Your task to perform on an android device: change keyboard looks Image 0: 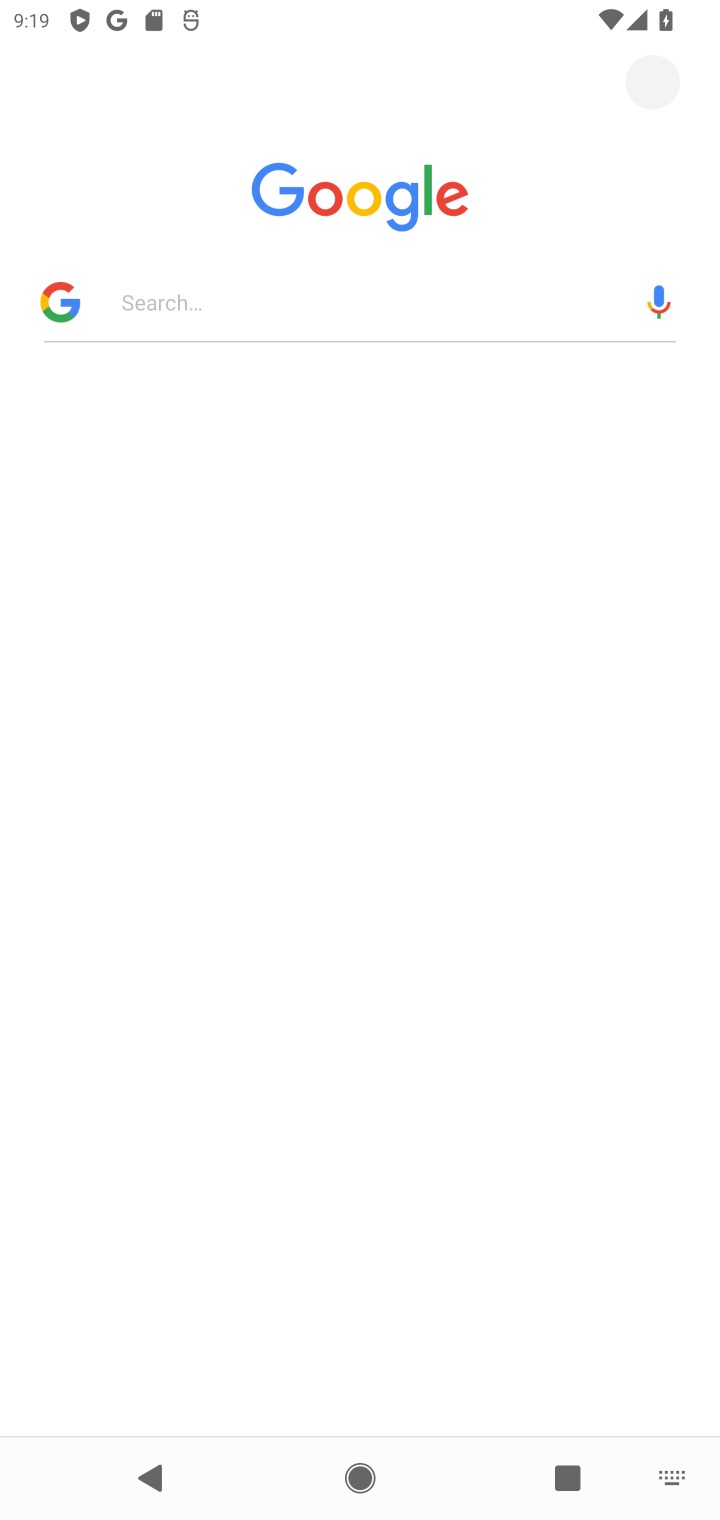
Step 0: press back button
Your task to perform on an android device: change keyboard looks Image 1: 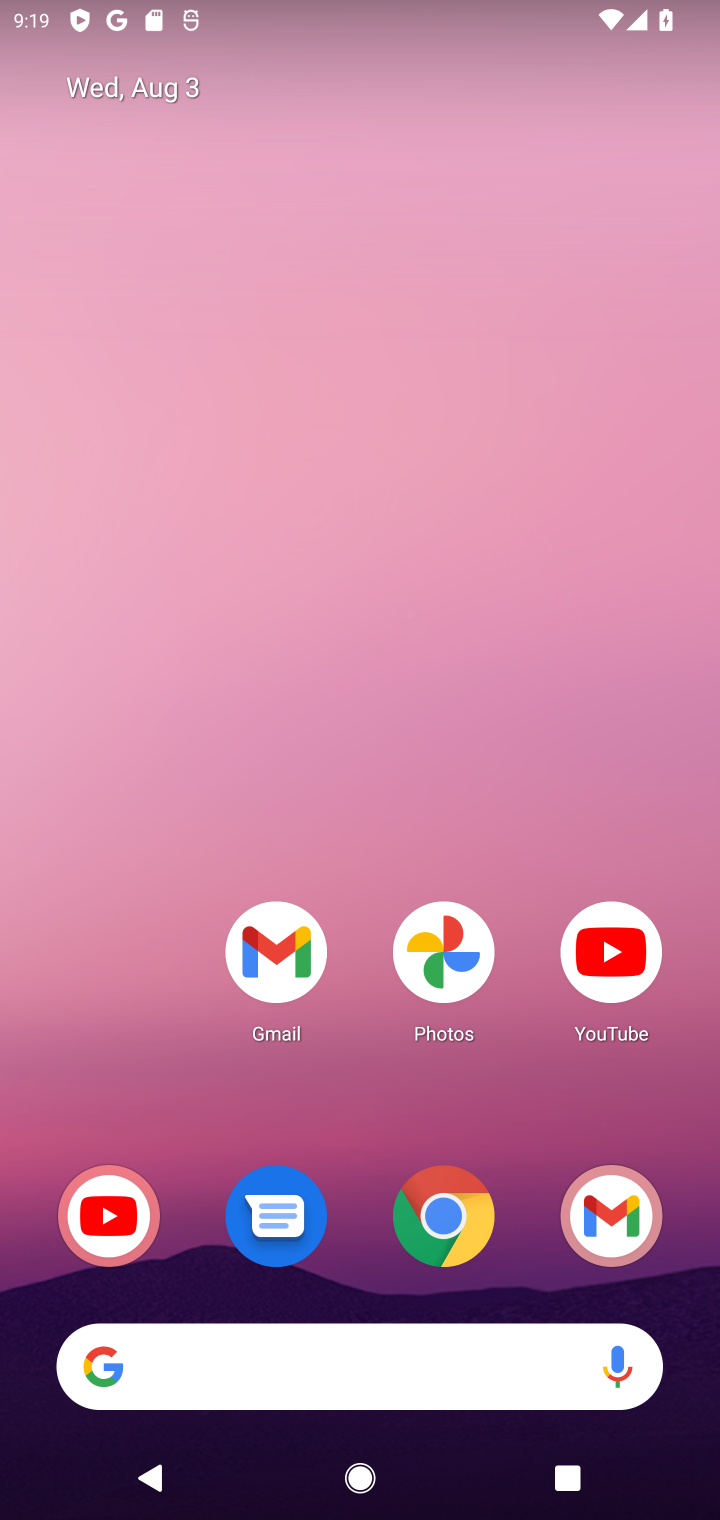
Step 1: drag from (132, 858) to (288, 3)
Your task to perform on an android device: change keyboard looks Image 2: 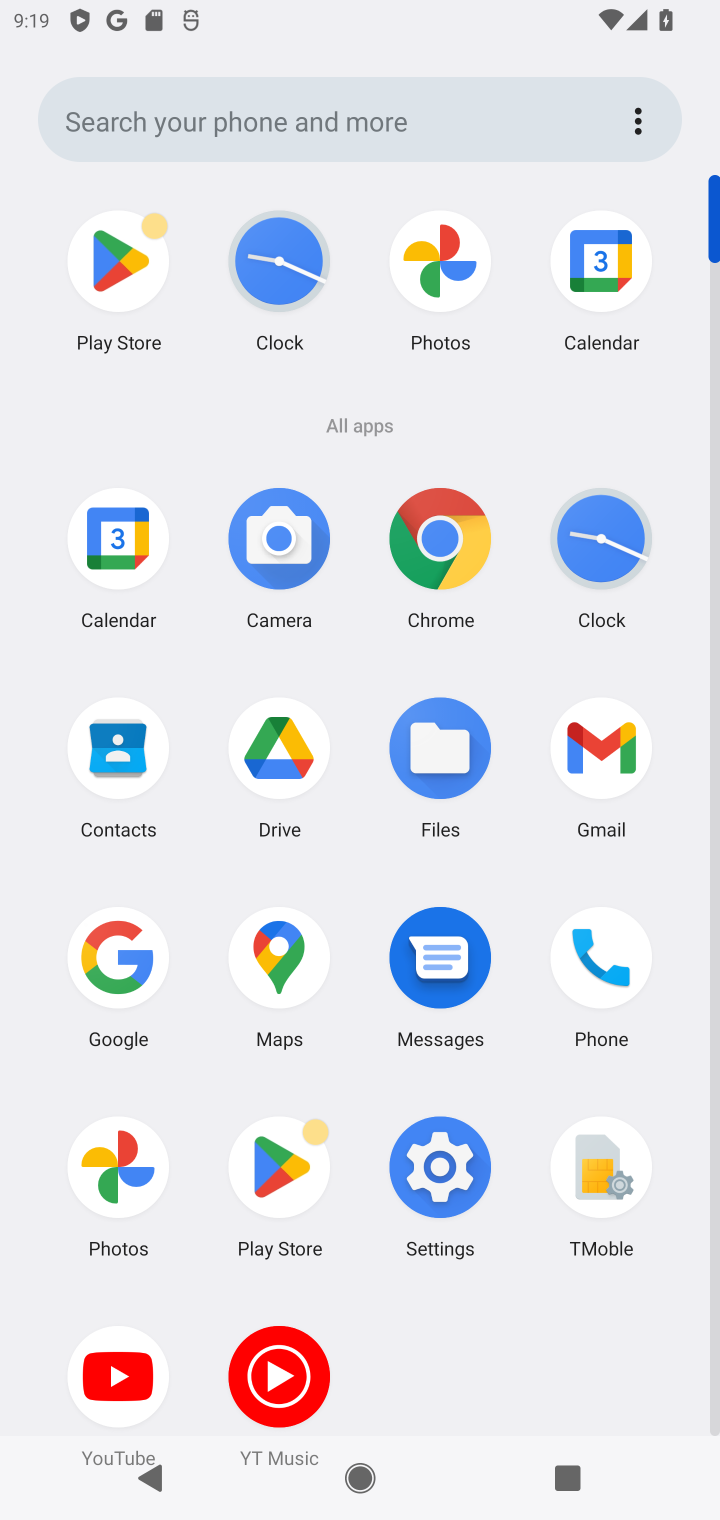
Step 2: click (431, 1179)
Your task to perform on an android device: change keyboard looks Image 3: 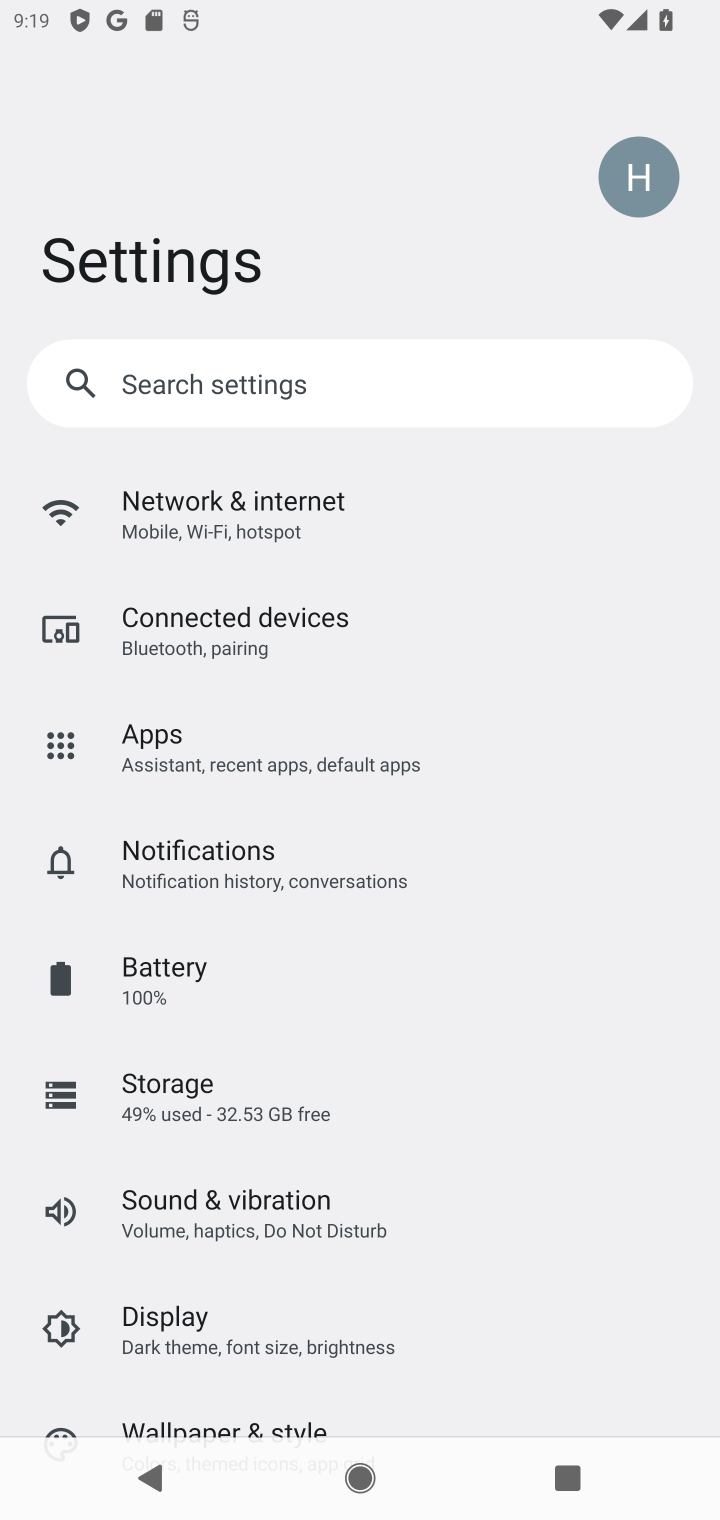
Step 3: drag from (325, 1030) to (465, 7)
Your task to perform on an android device: change keyboard looks Image 4: 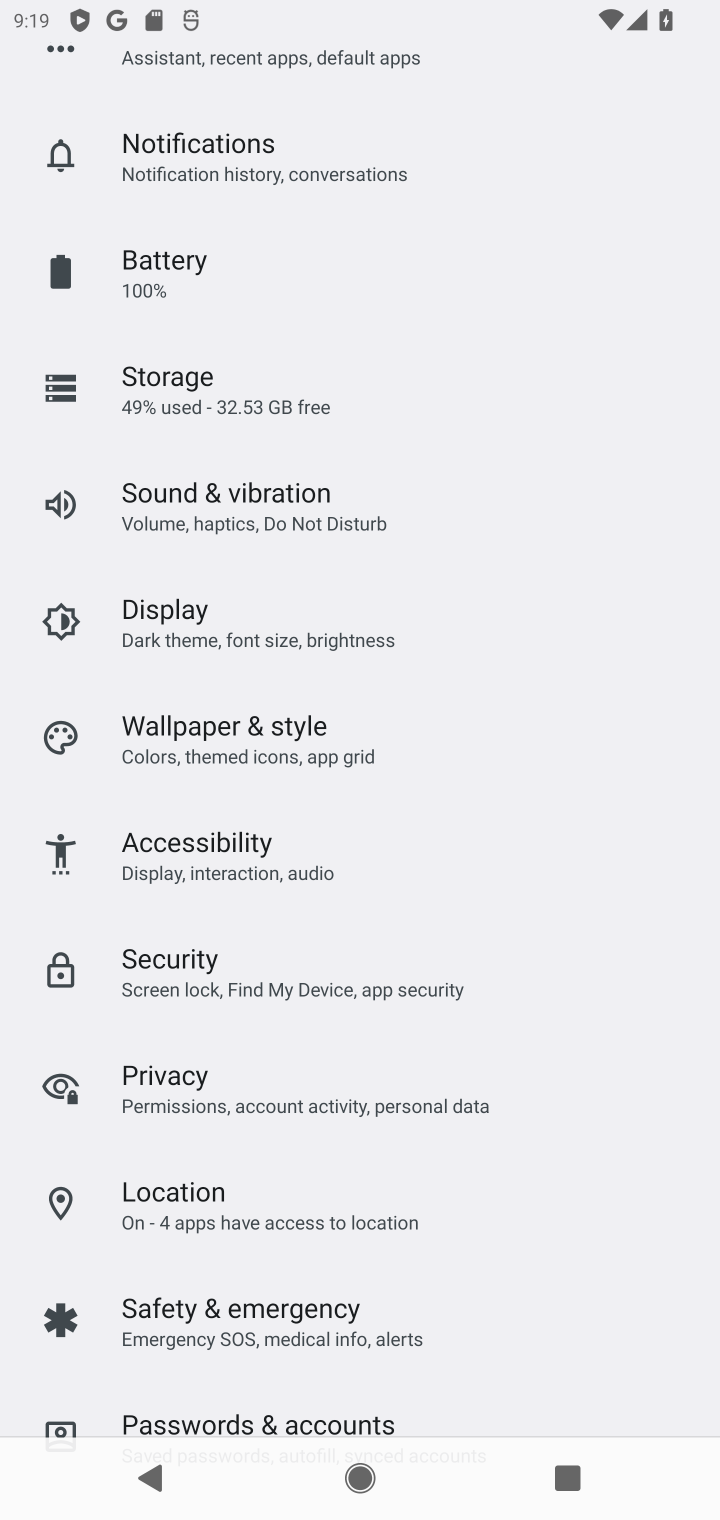
Step 4: drag from (323, 1348) to (534, 1)
Your task to perform on an android device: change keyboard looks Image 5: 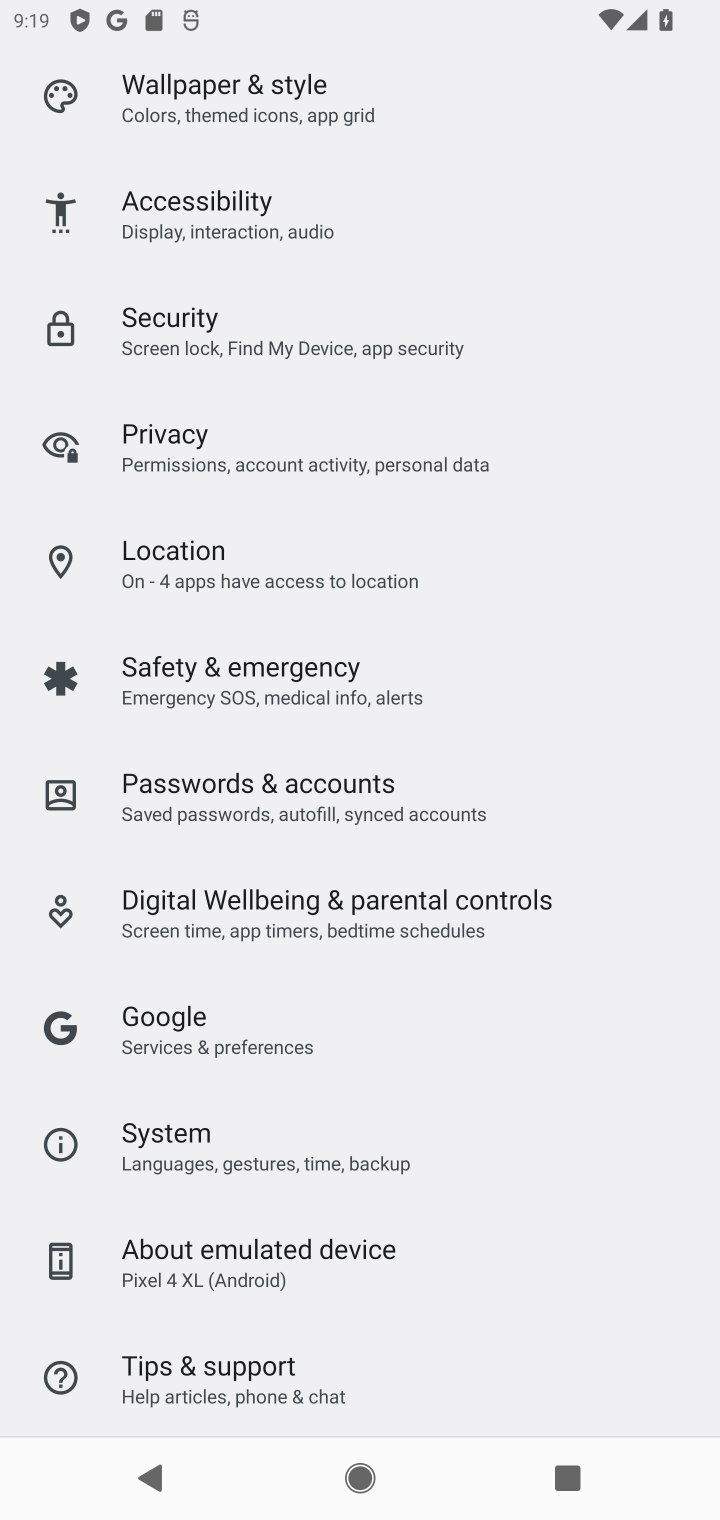
Step 5: drag from (340, 1266) to (543, 38)
Your task to perform on an android device: change keyboard looks Image 6: 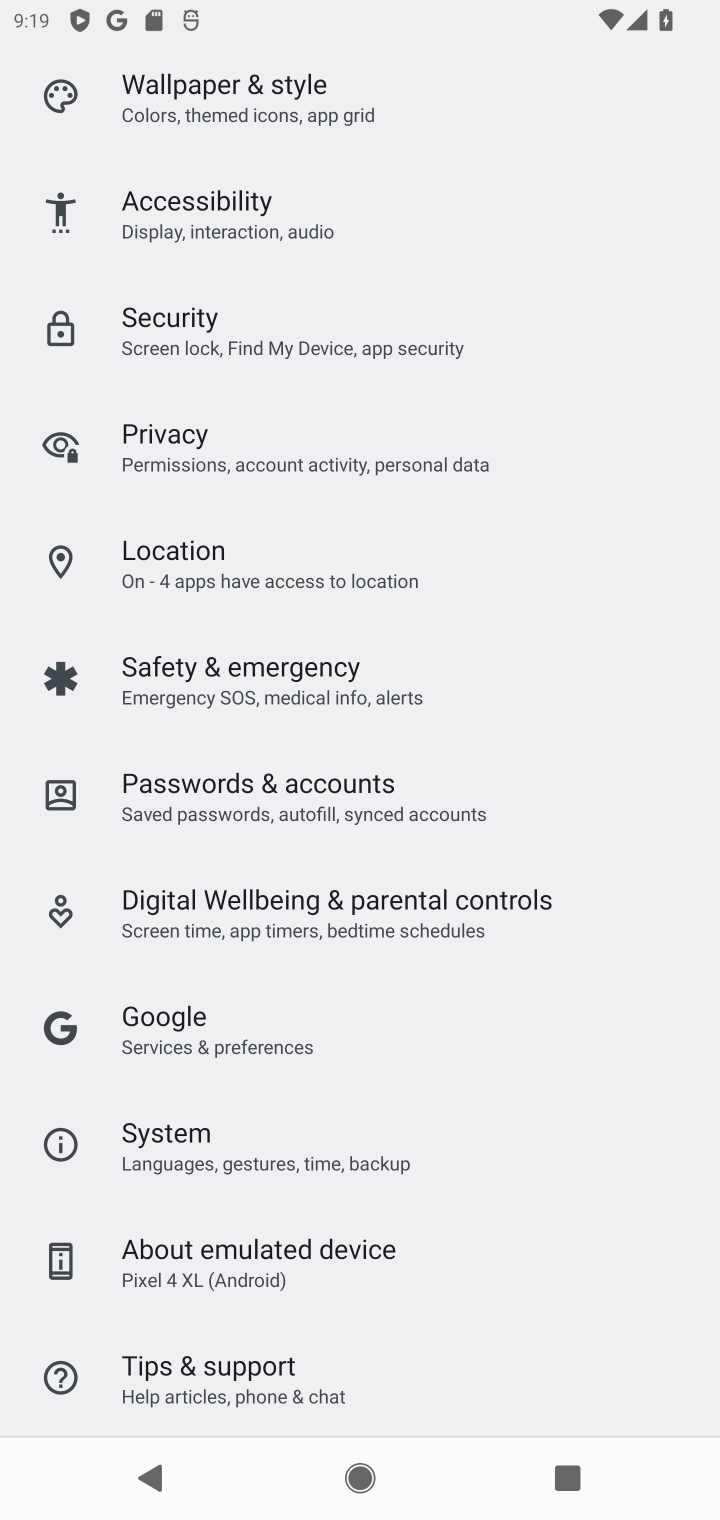
Step 6: click (228, 1382)
Your task to perform on an android device: change keyboard looks Image 7: 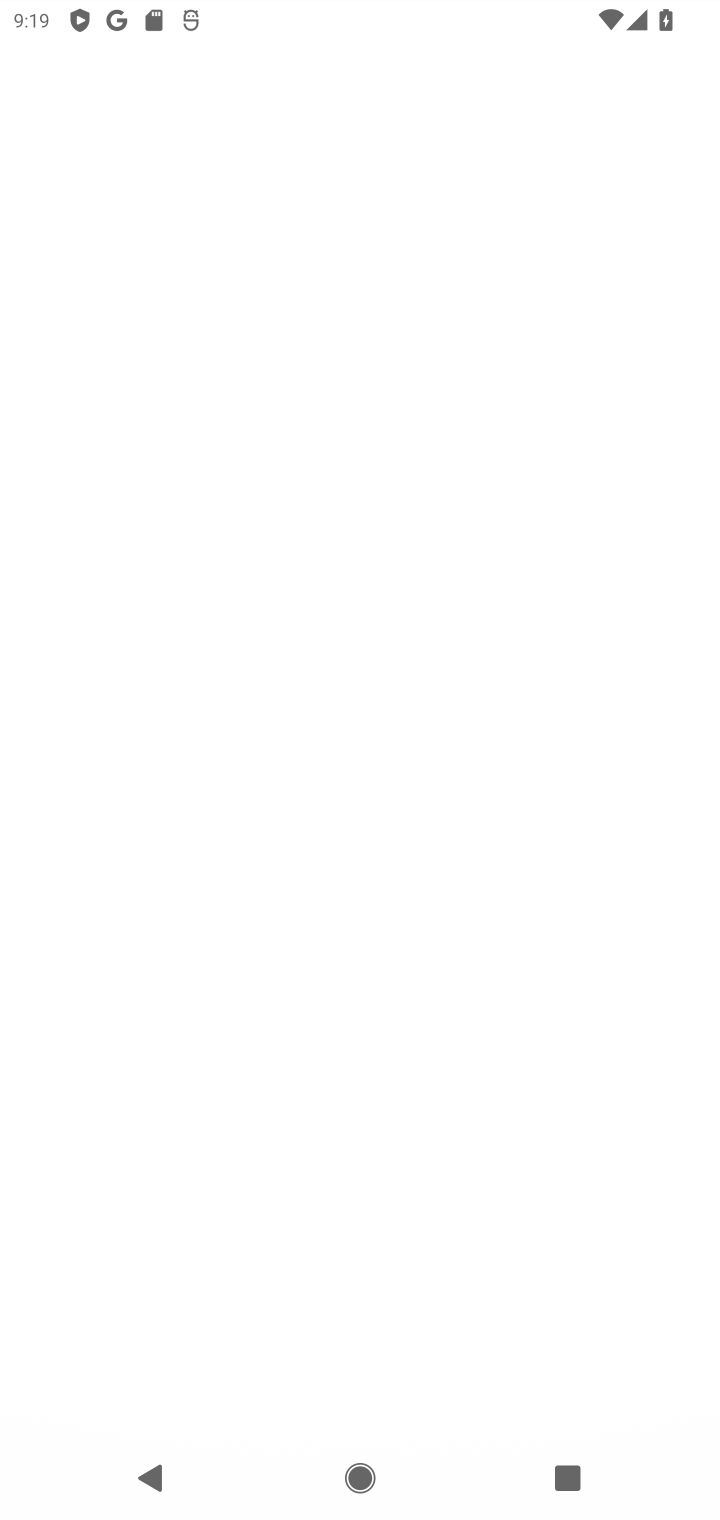
Step 7: press back button
Your task to perform on an android device: change keyboard looks Image 8: 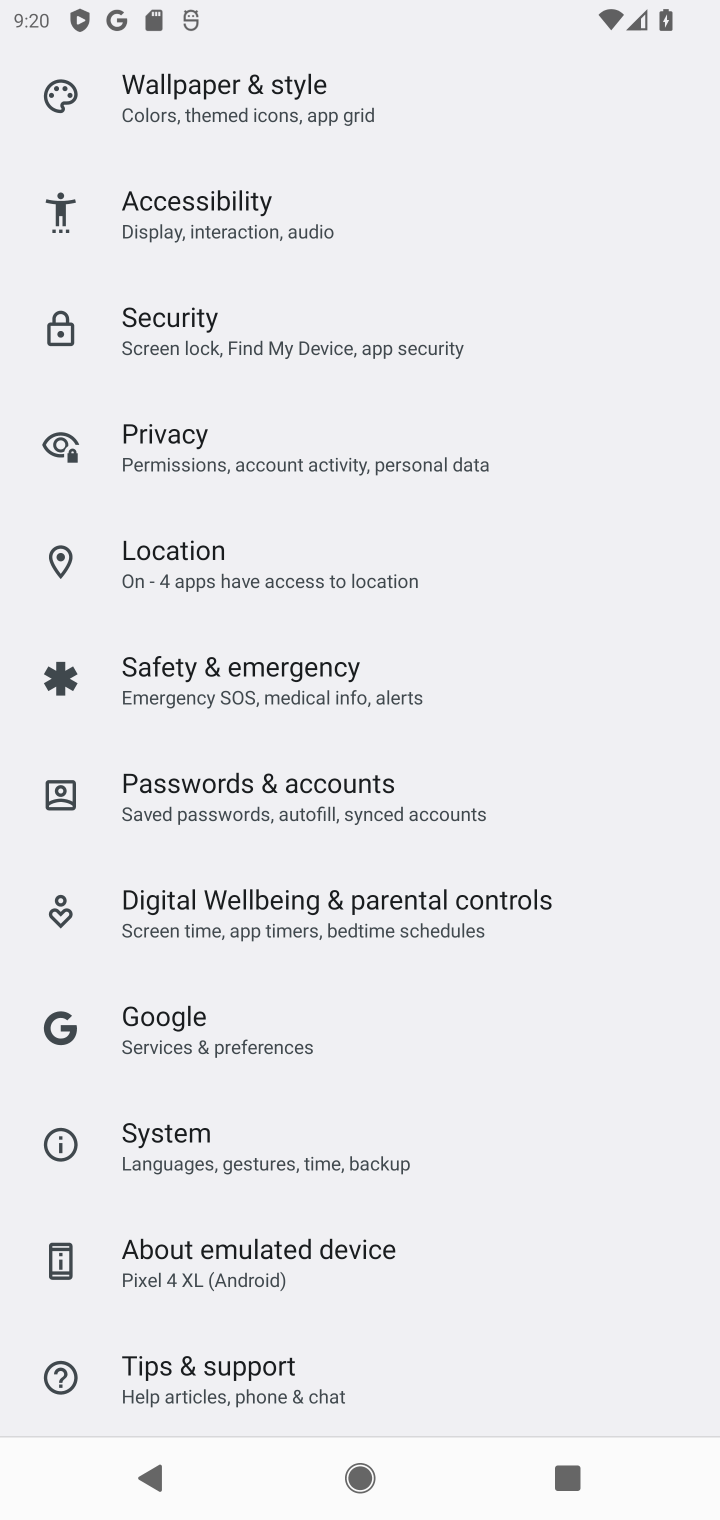
Step 8: drag from (308, 1233) to (419, 3)
Your task to perform on an android device: change keyboard looks Image 9: 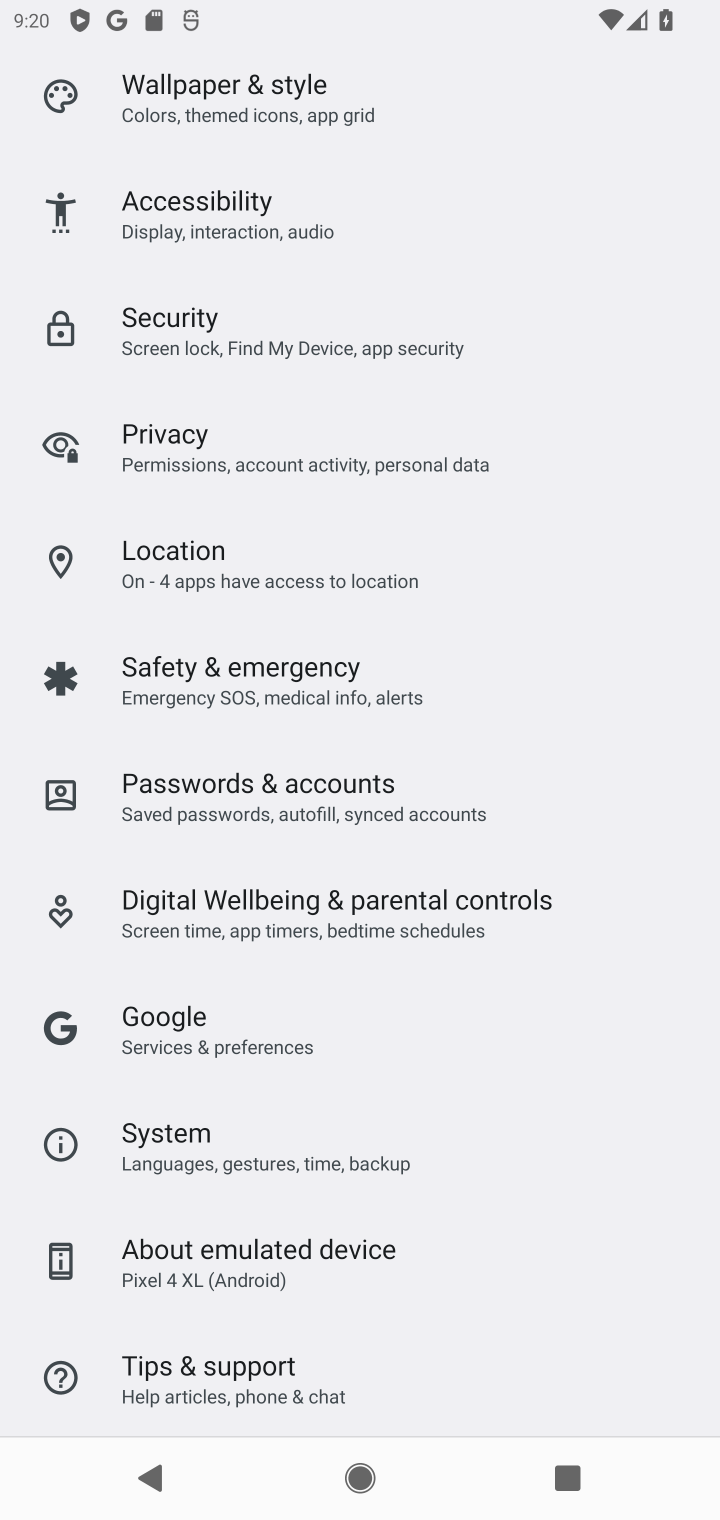
Step 9: drag from (308, 1361) to (435, 98)
Your task to perform on an android device: change keyboard looks Image 10: 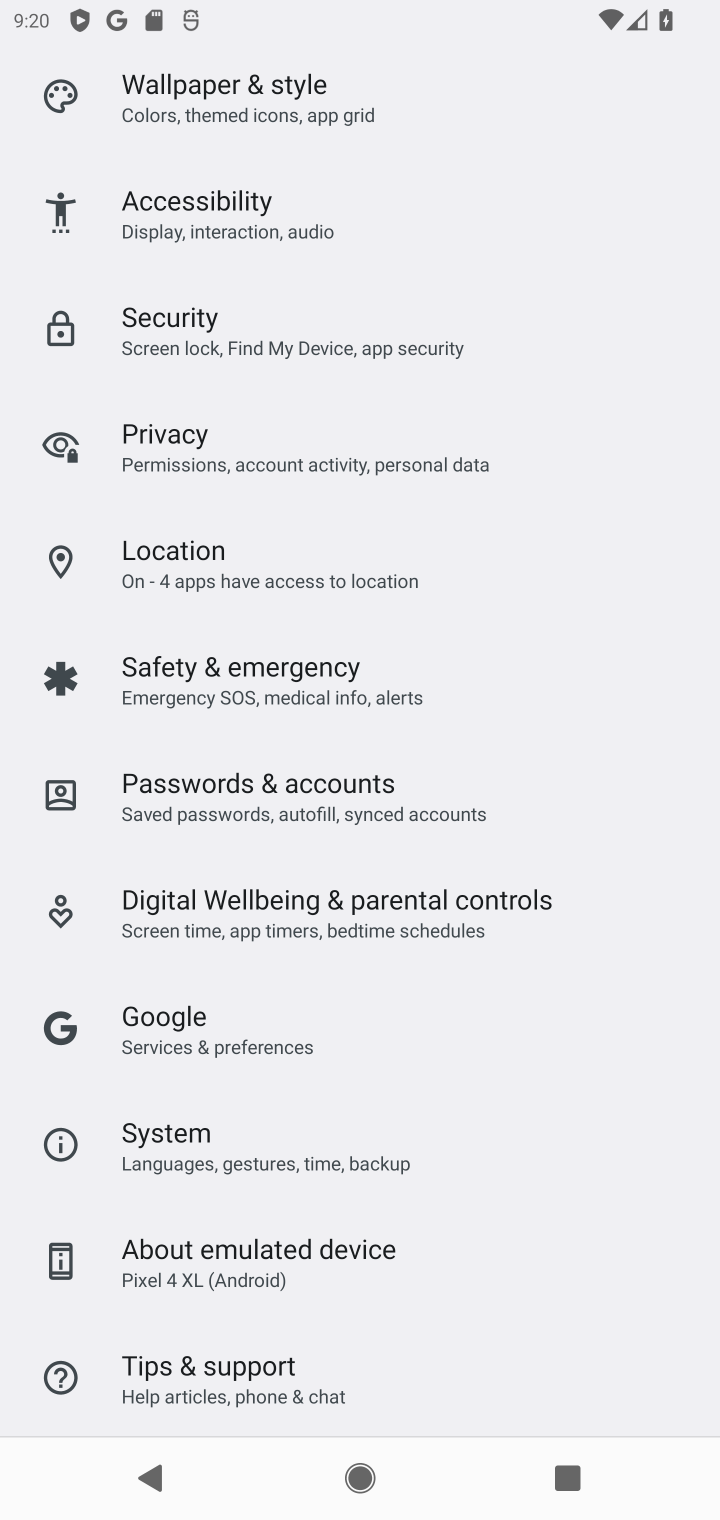
Step 10: click (333, 1265)
Your task to perform on an android device: change keyboard looks Image 11: 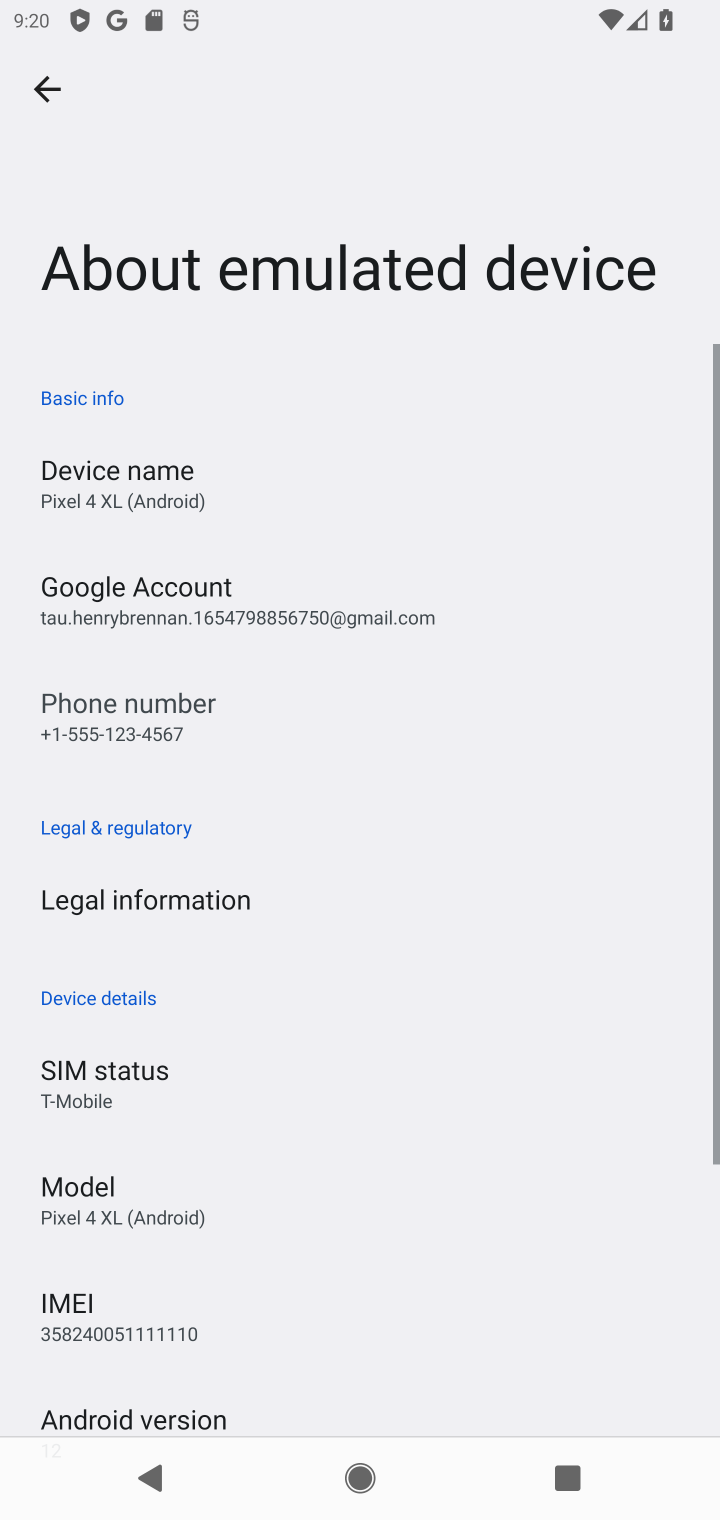
Step 11: click (41, 82)
Your task to perform on an android device: change keyboard looks Image 12: 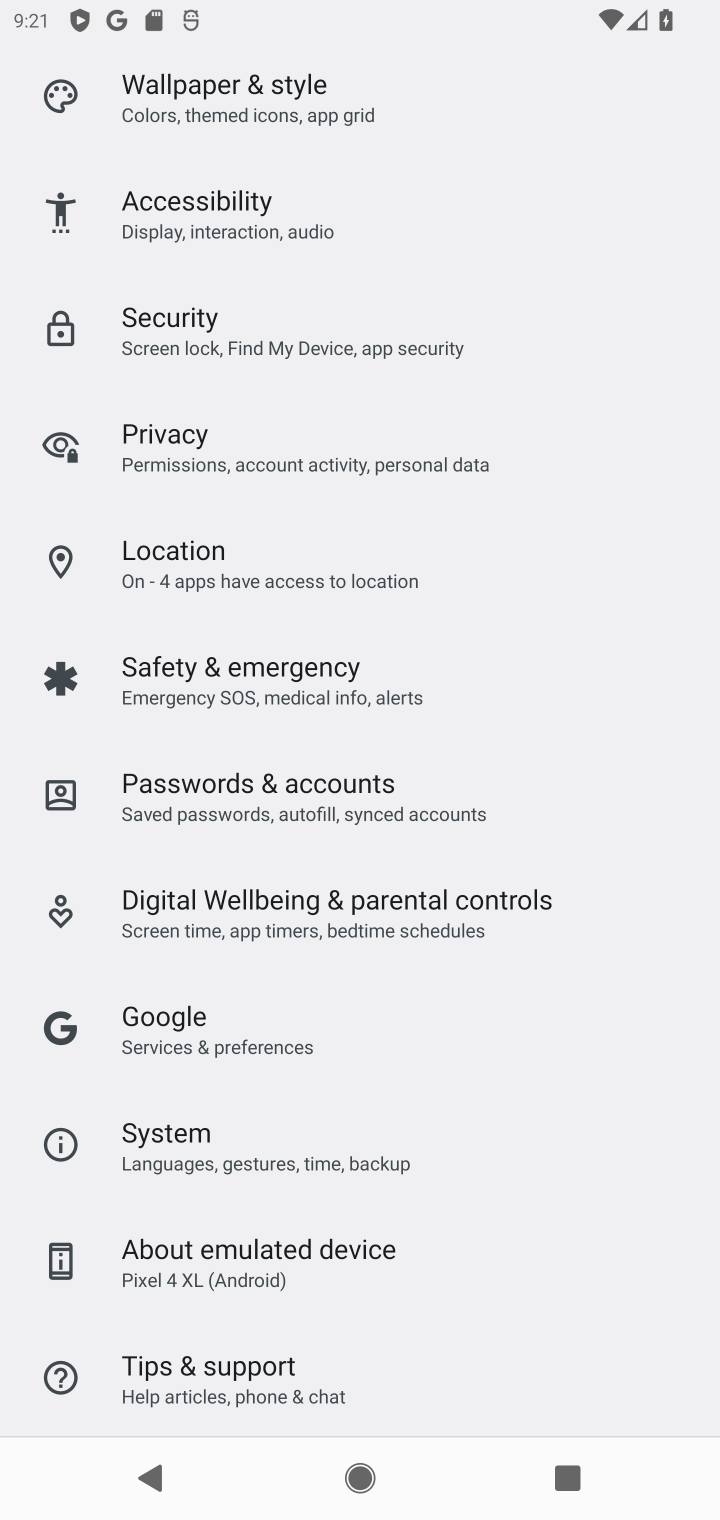
Step 12: click (333, 1149)
Your task to perform on an android device: change keyboard looks Image 13: 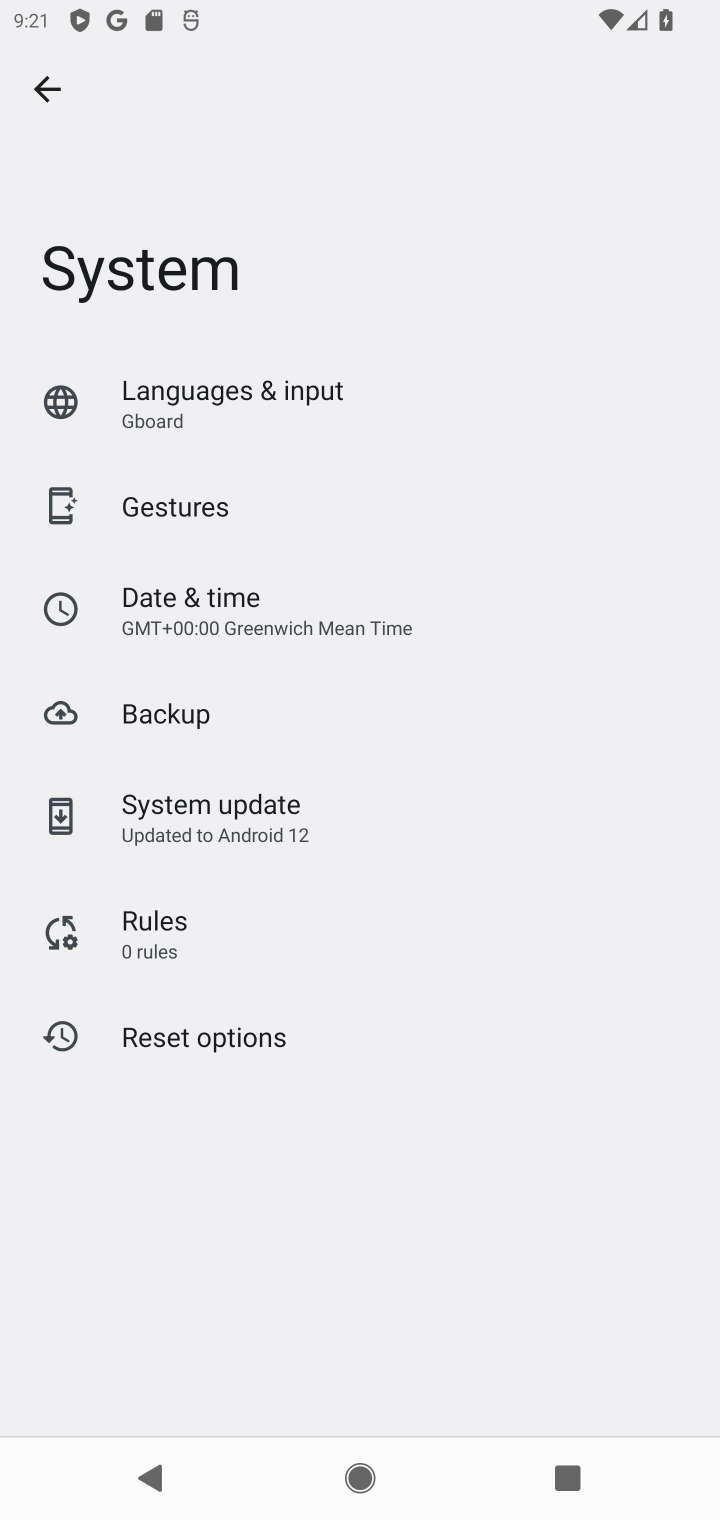
Step 13: click (226, 422)
Your task to perform on an android device: change keyboard looks Image 14: 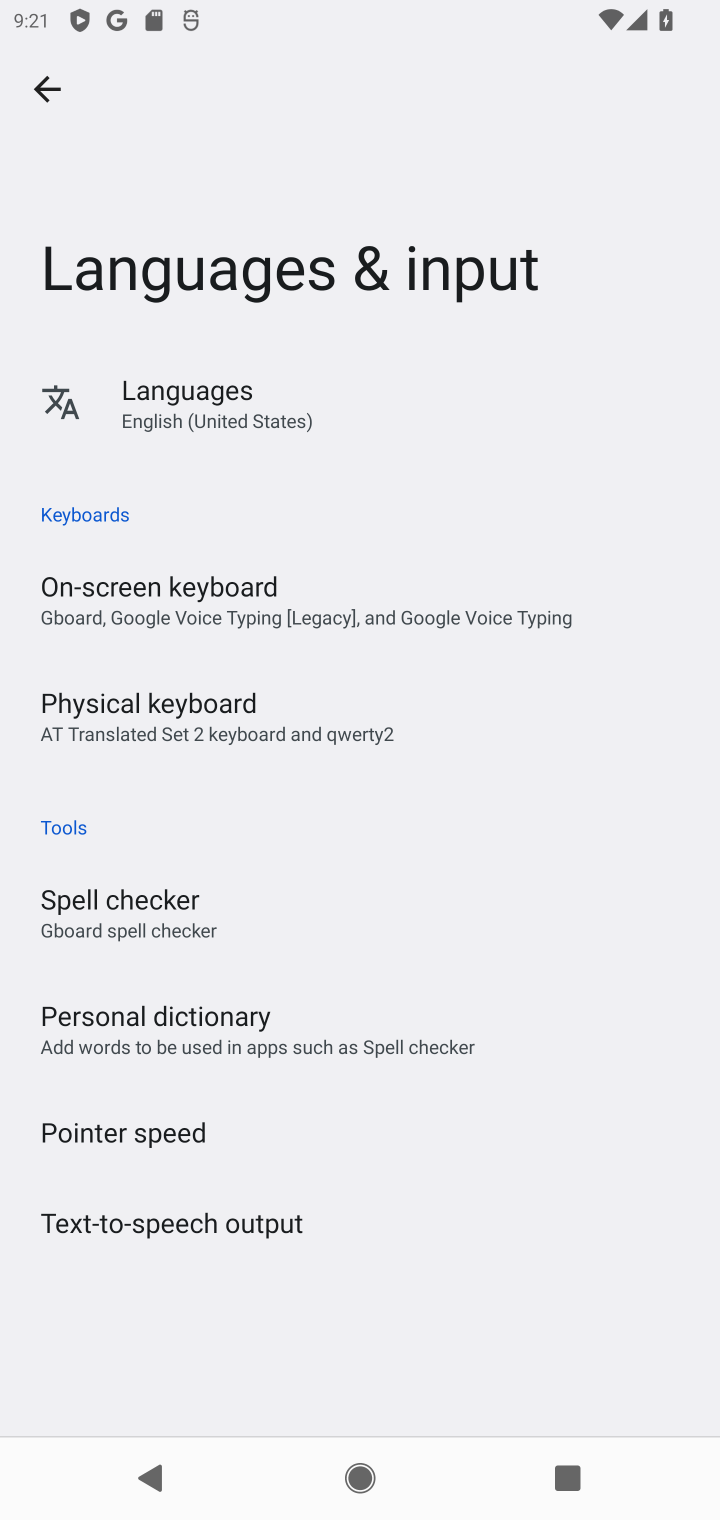
Step 14: click (272, 712)
Your task to perform on an android device: change keyboard looks Image 15: 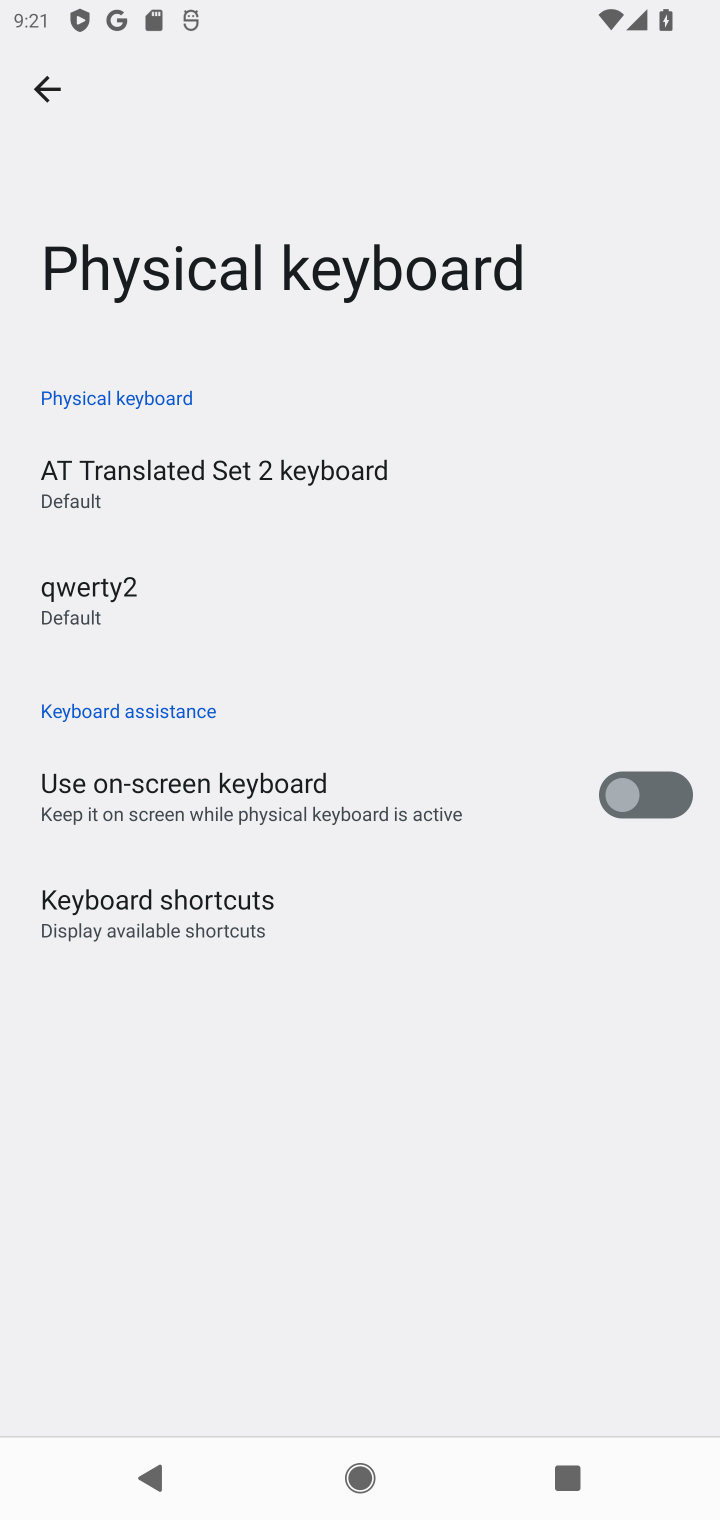
Step 15: click (64, 104)
Your task to perform on an android device: change keyboard looks Image 16: 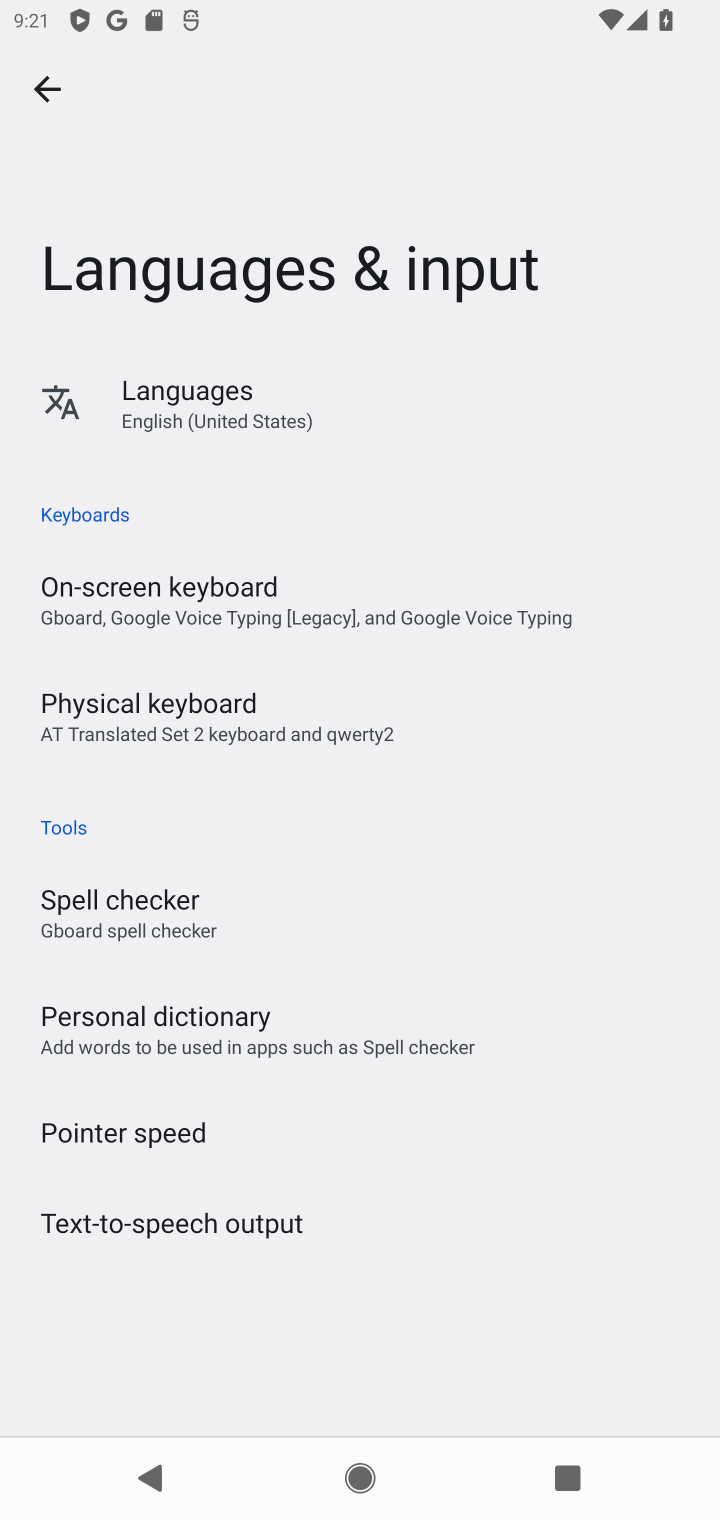
Step 16: click (172, 412)
Your task to perform on an android device: change keyboard looks Image 17: 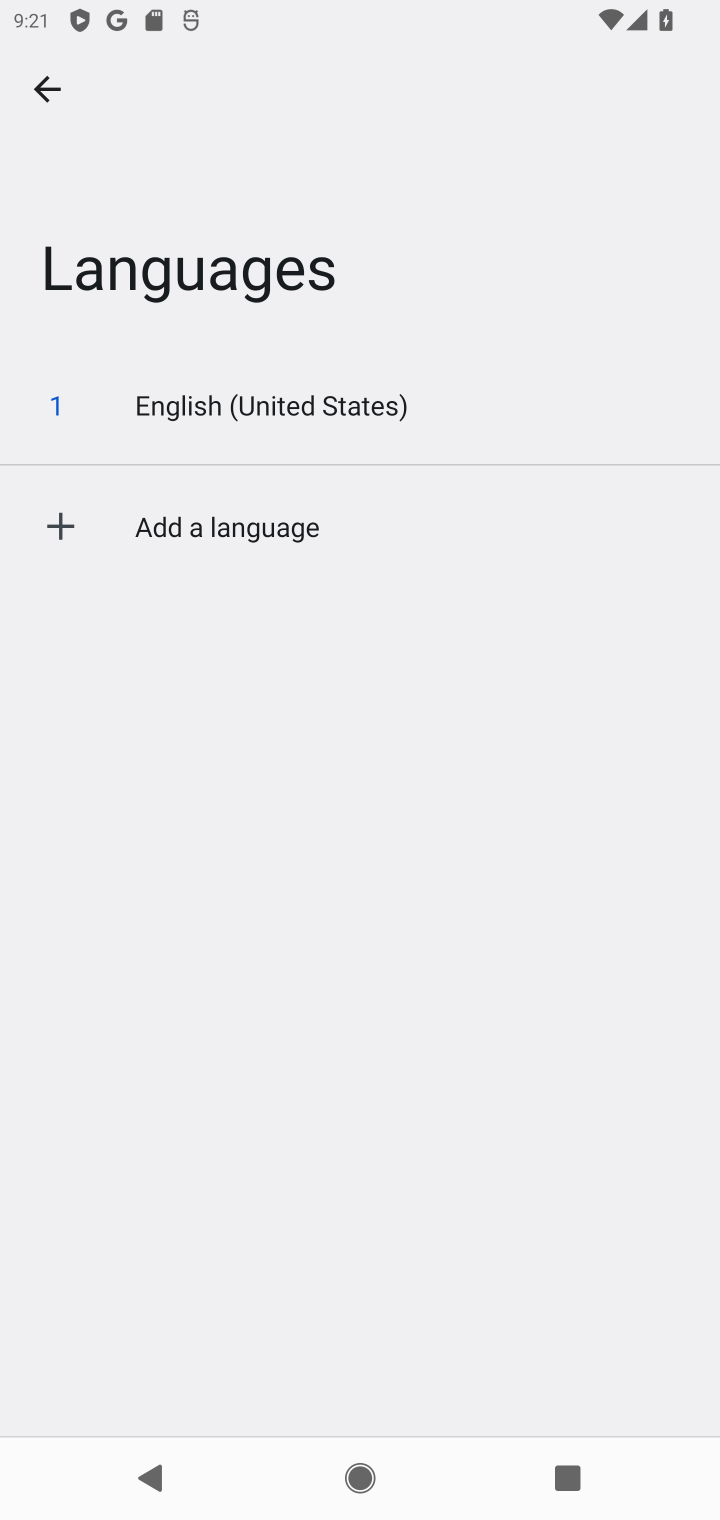
Step 17: click (26, 72)
Your task to perform on an android device: change keyboard looks Image 18: 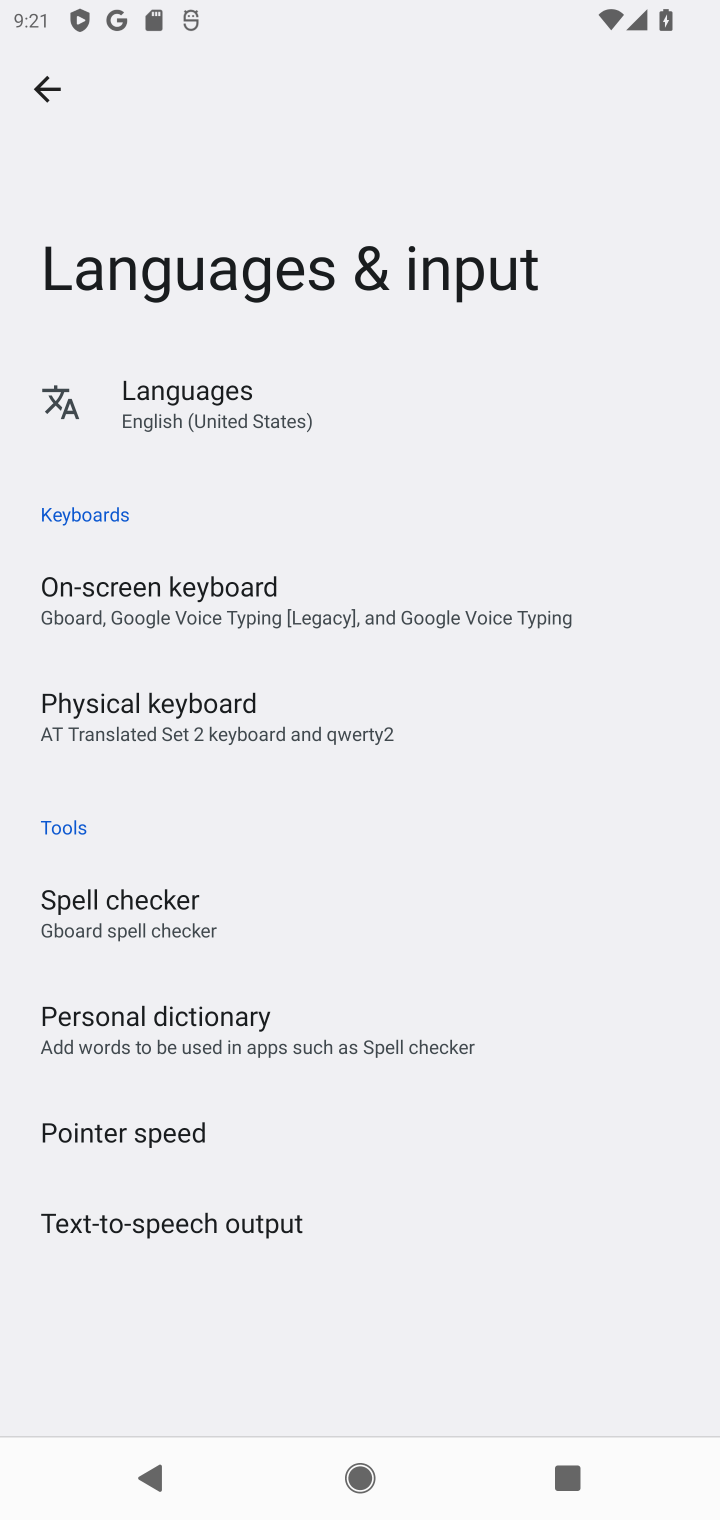
Step 18: click (47, 82)
Your task to perform on an android device: change keyboard looks Image 19: 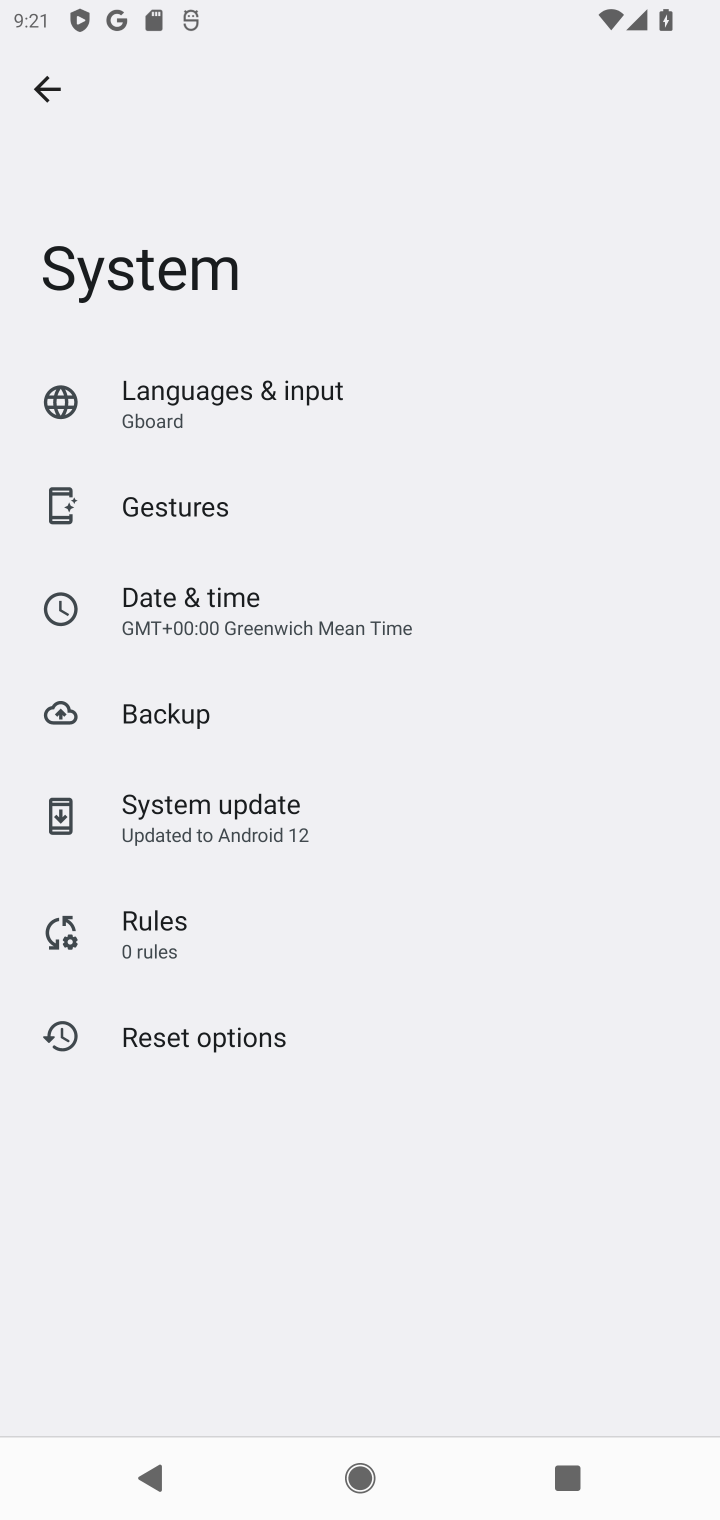
Step 19: click (227, 380)
Your task to perform on an android device: change keyboard looks Image 20: 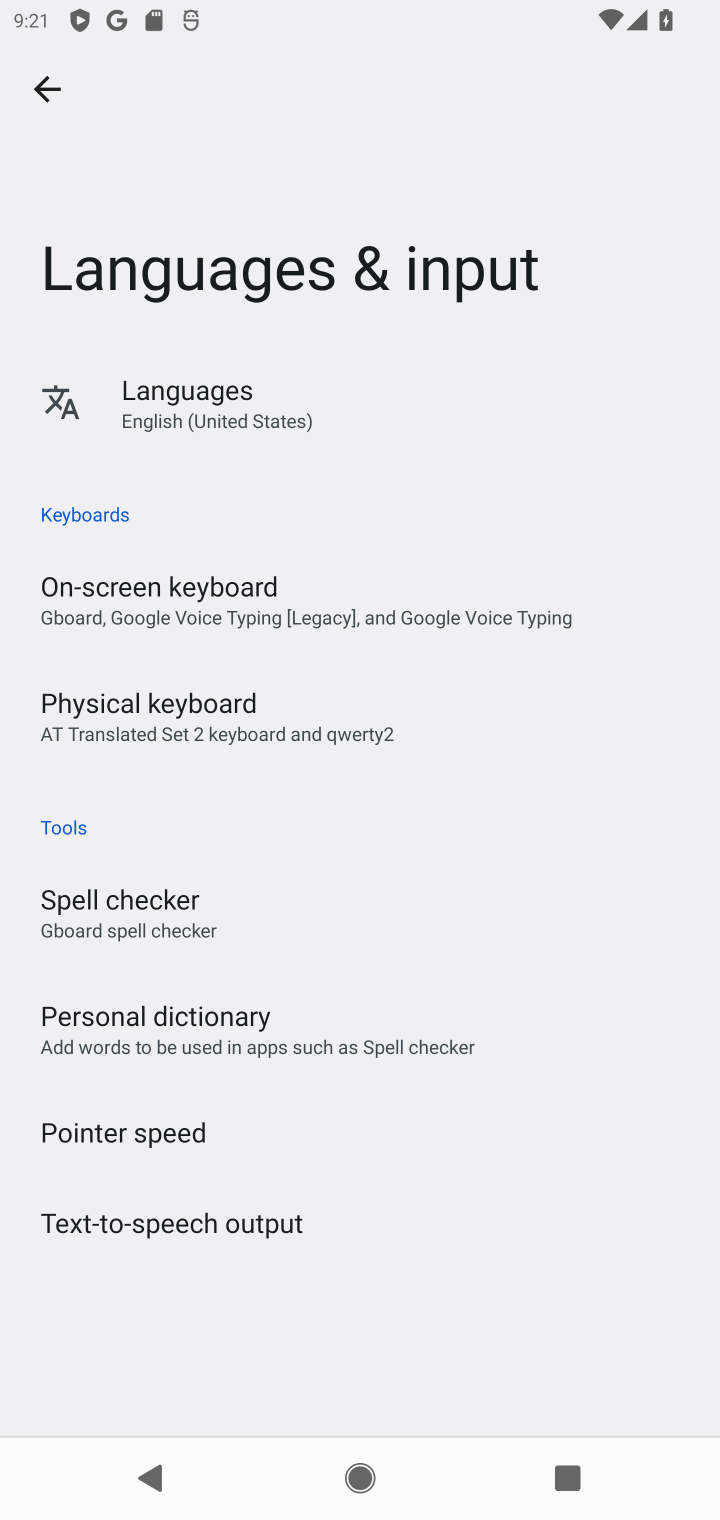
Step 20: click (143, 599)
Your task to perform on an android device: change keyboard looks Image 21: 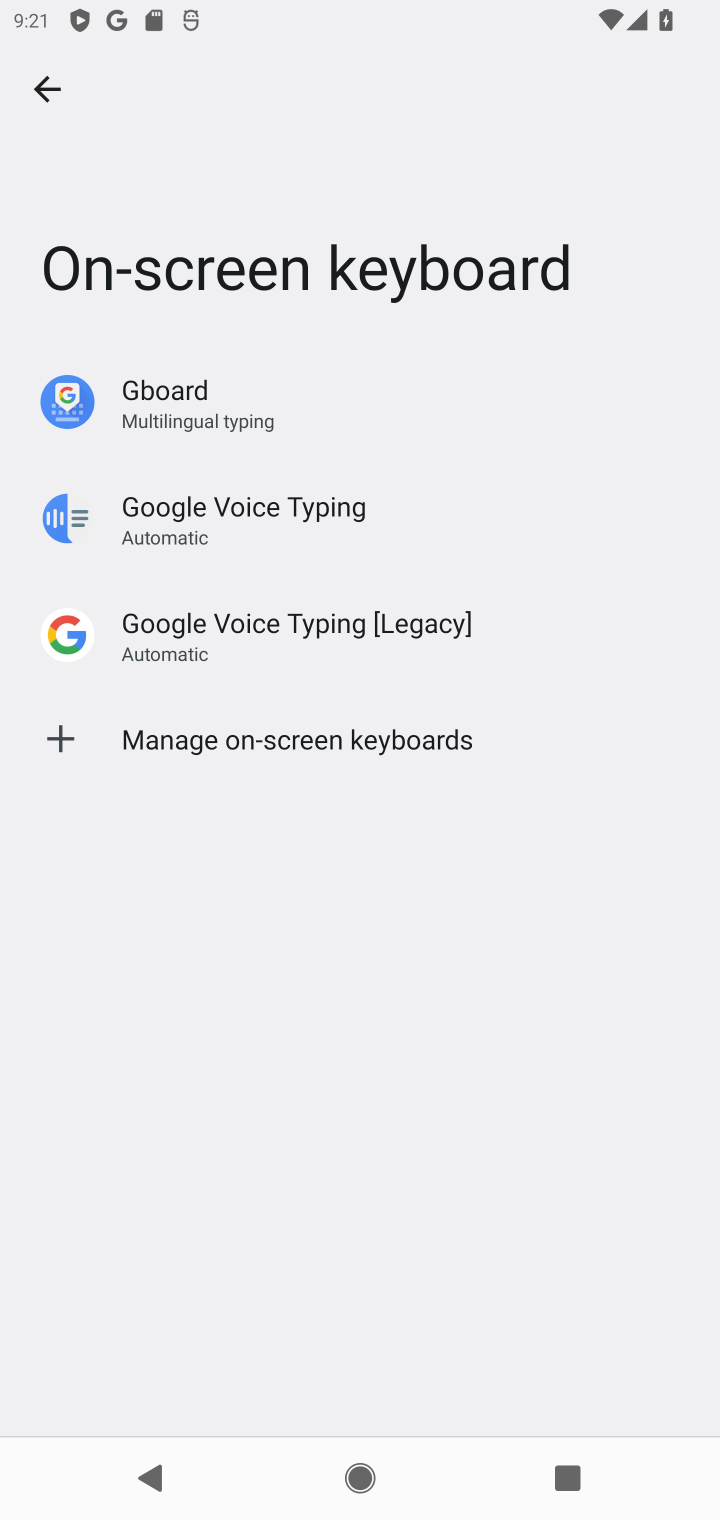
Step 21: click (49, 82)
Your task to perform on an android device: change keyboard looks Image 22: 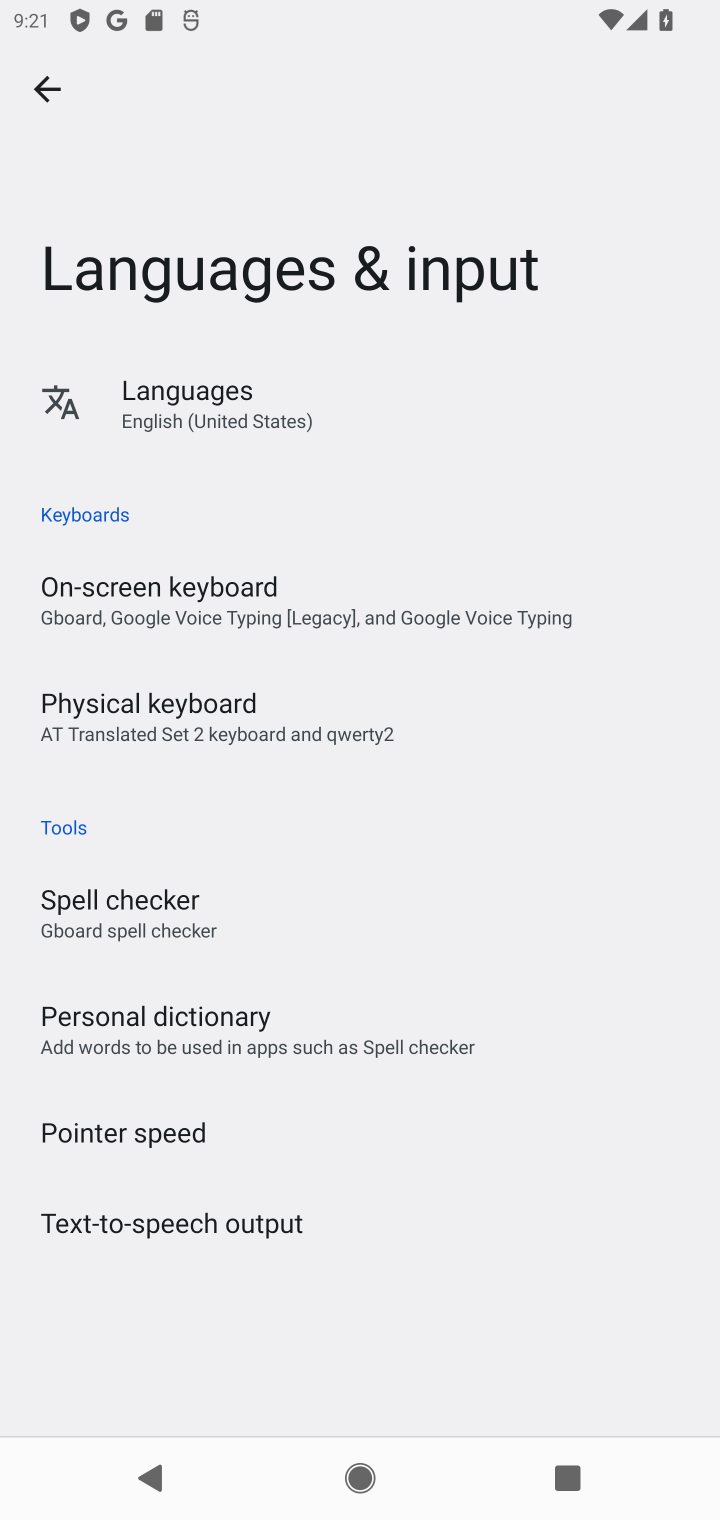
Step 22: click (169, 611)
Your task to perform on an android device: change keyboard looks Image 23: 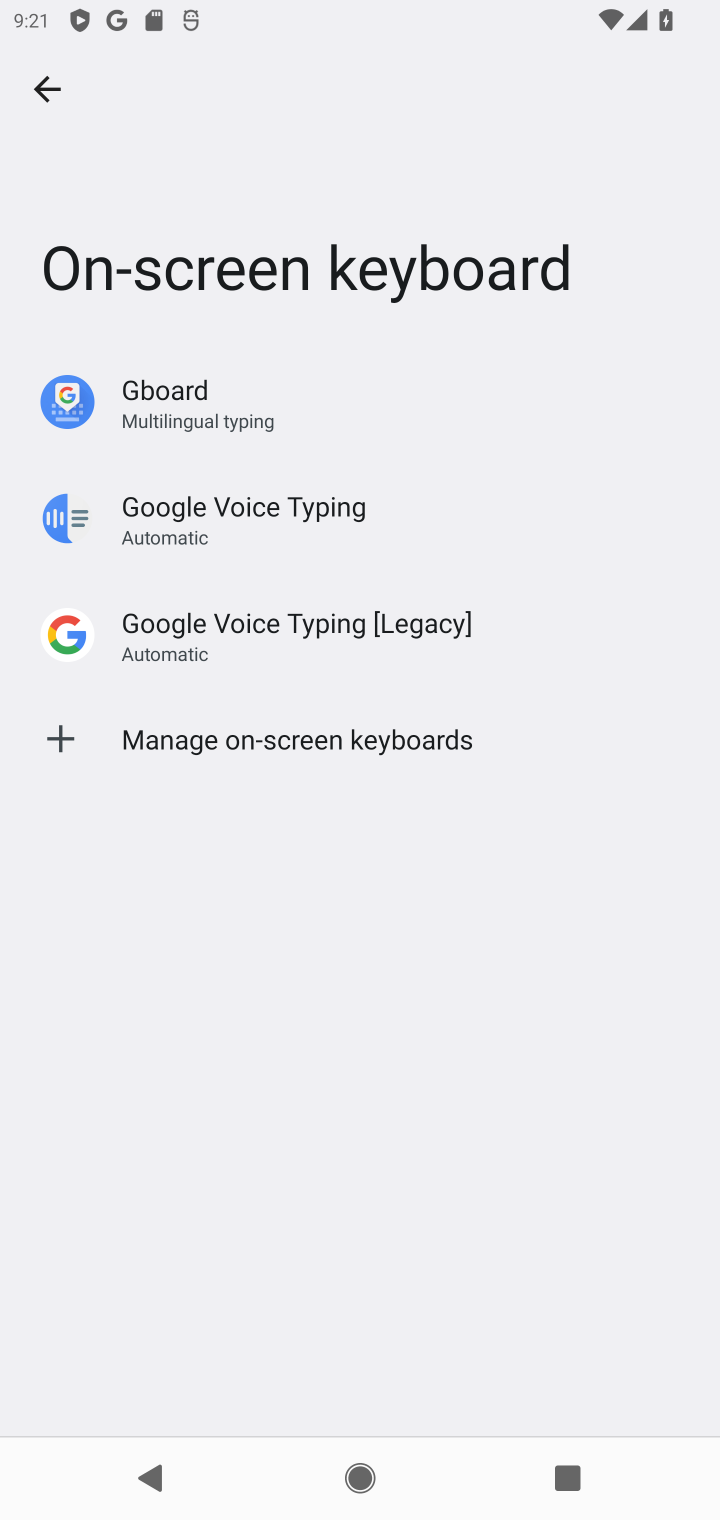
Step 23: click (190, 409)
Your task to perform on an android device: change keyboard looks Image 24: 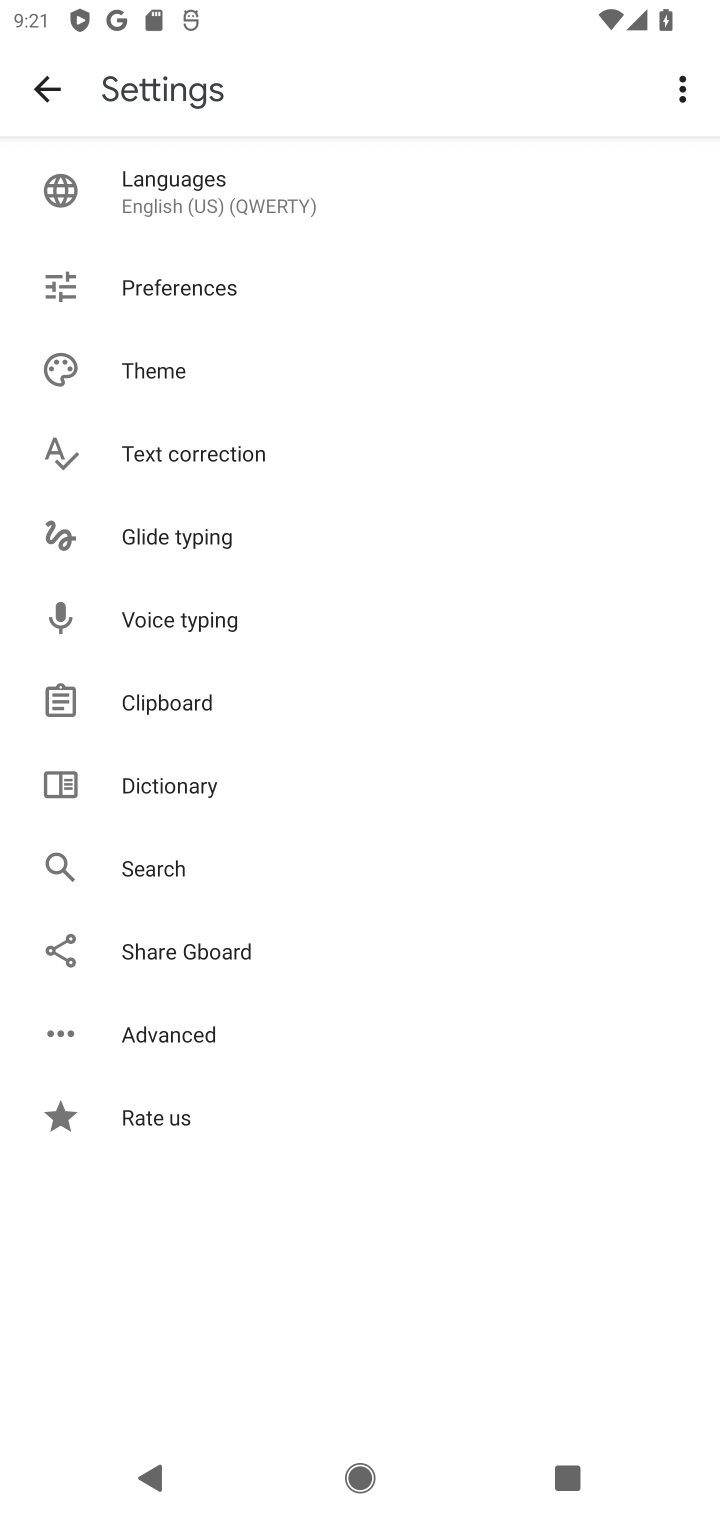
Step 24: click (173, 371)
Your task to perform on an android device: change keyboard looks Image 25: 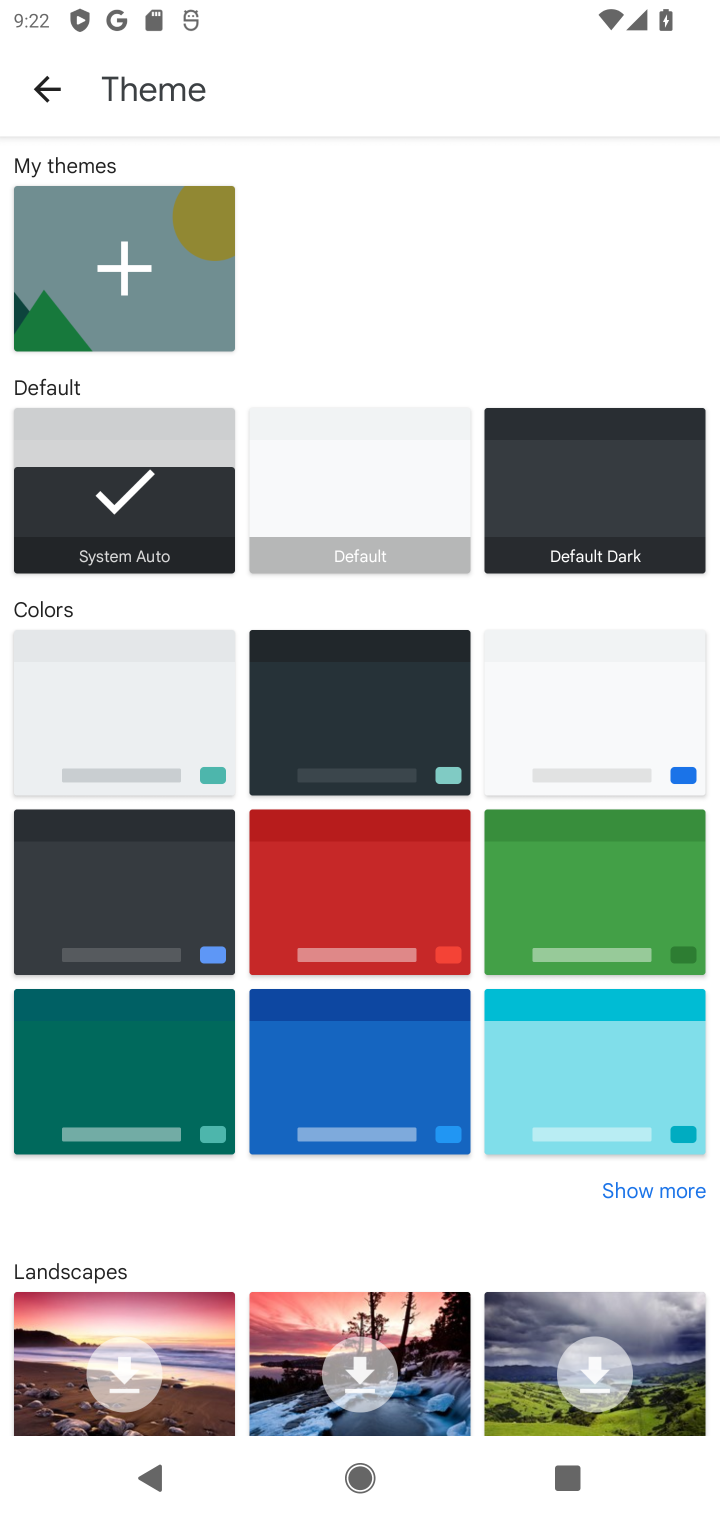
Step 25: click (606, 885)
Your task to perform on an android device: change keyboard looks Image 26: 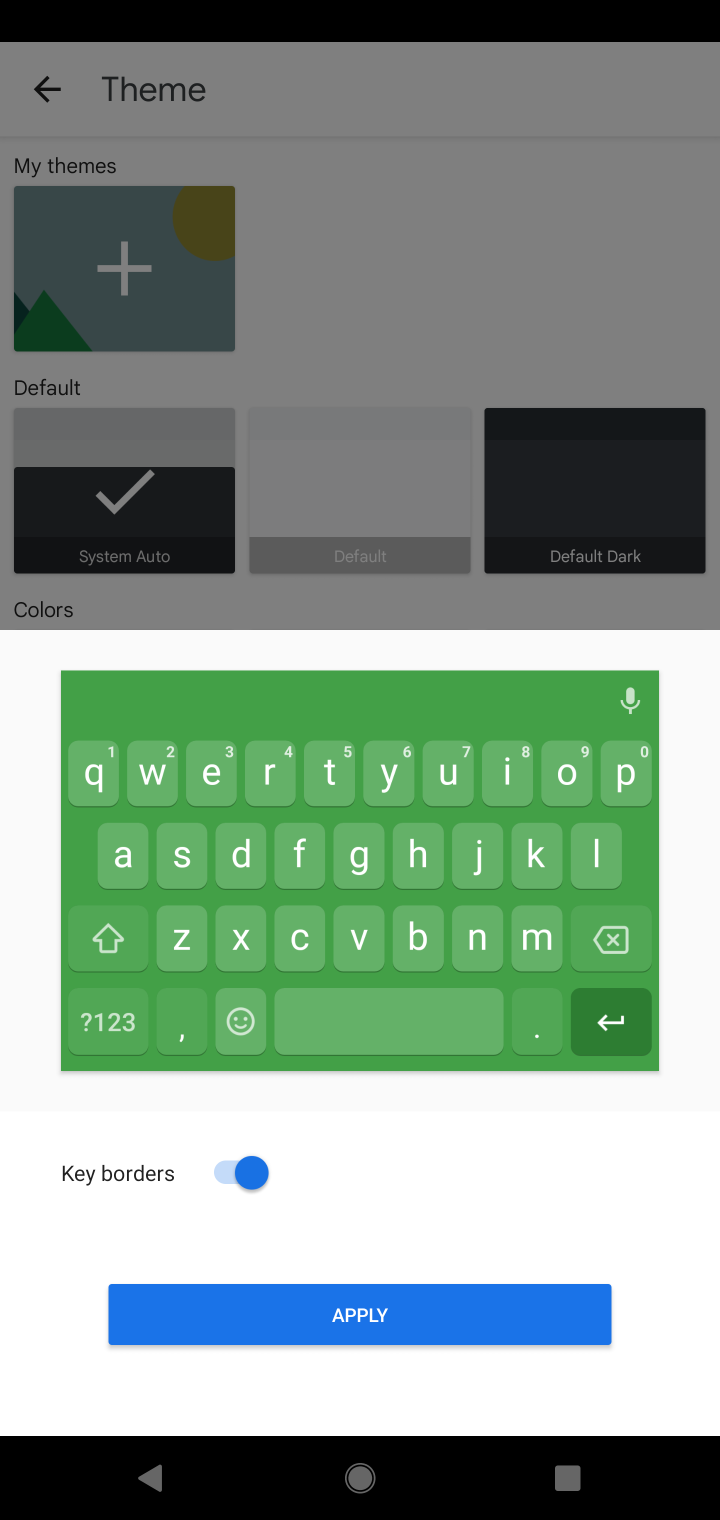
Step 26: click (220, 1309)
Your task to perform on an android device: change keyboard looks Image 27: 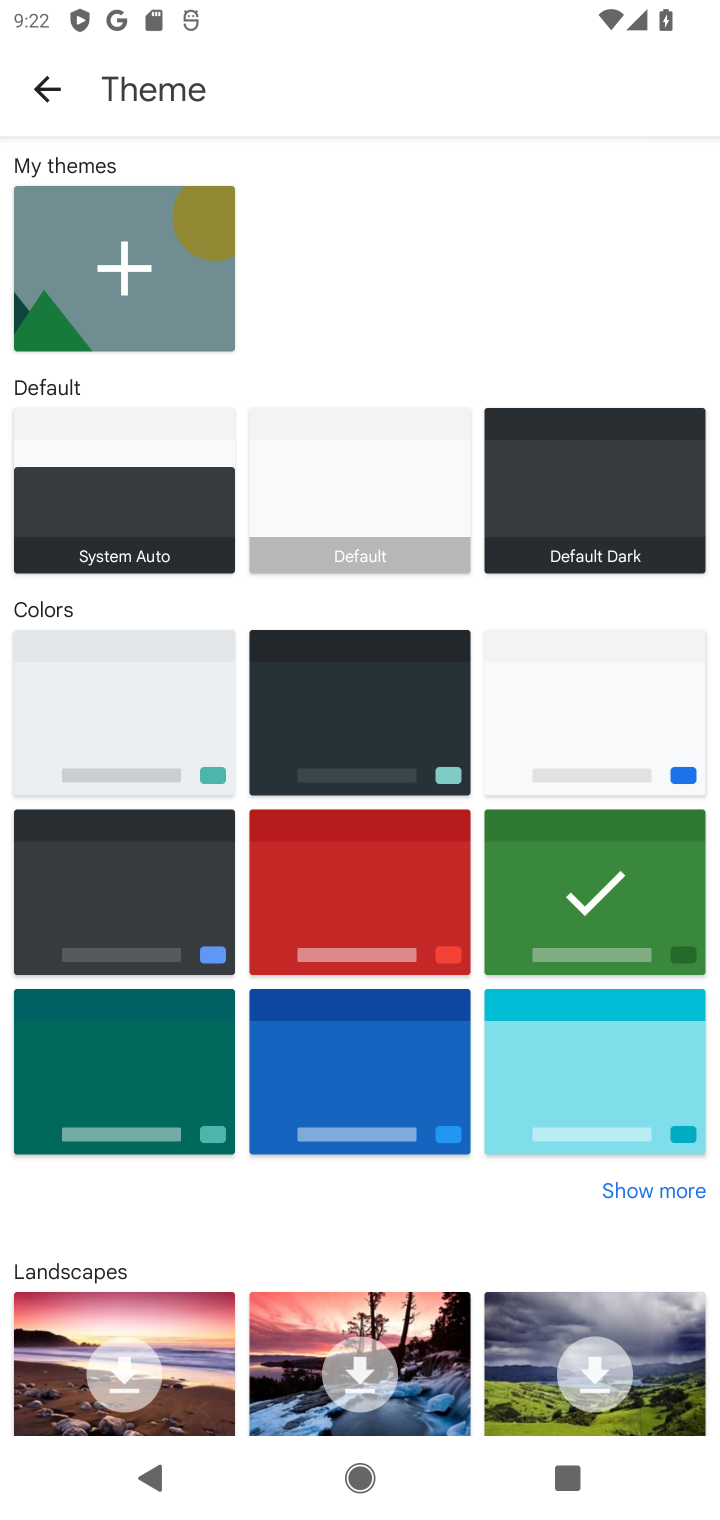
Step 27: click (394, 929)
Your task to perform on an android device: change keyboard looks Image 28: 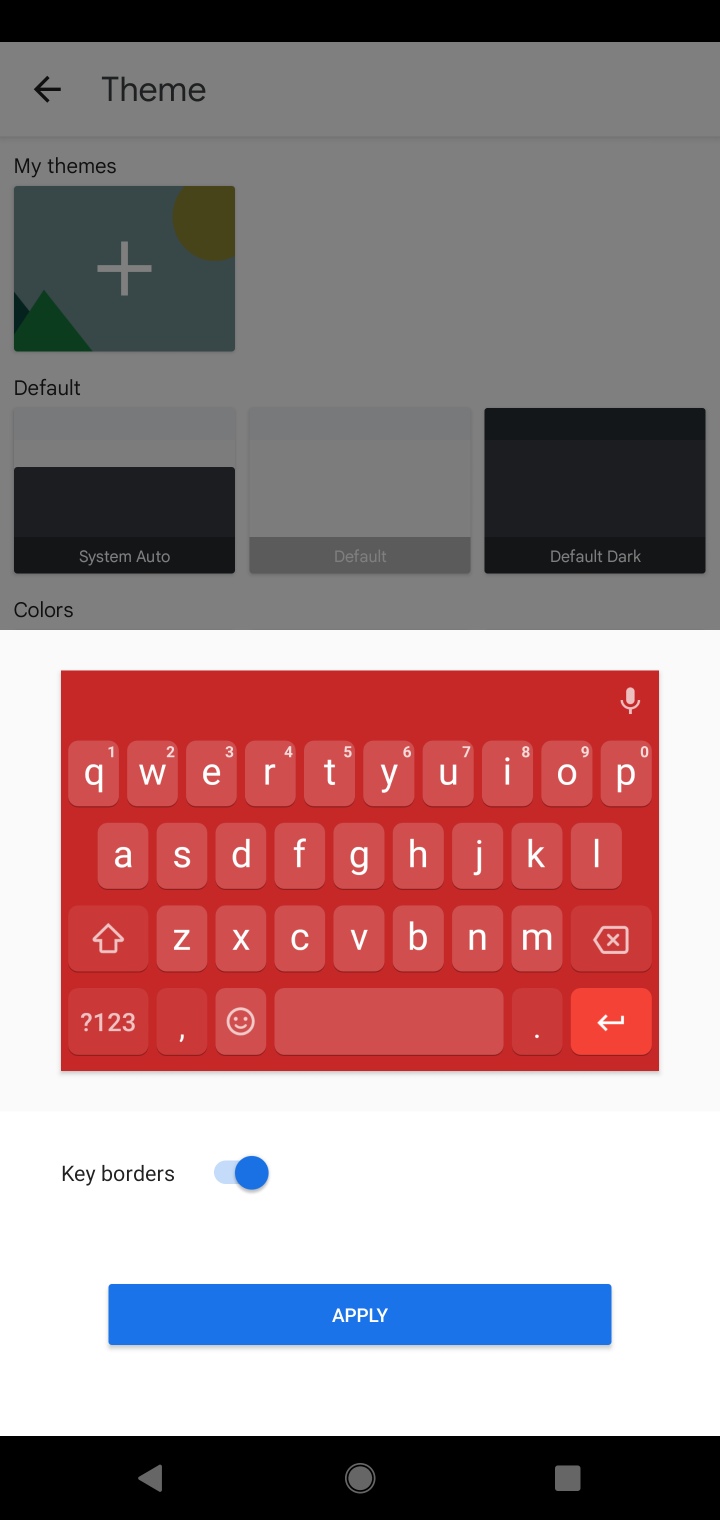
Step 28: click (301, 1303)
Your task to perform on an android device: change keyboard looks Image 29: 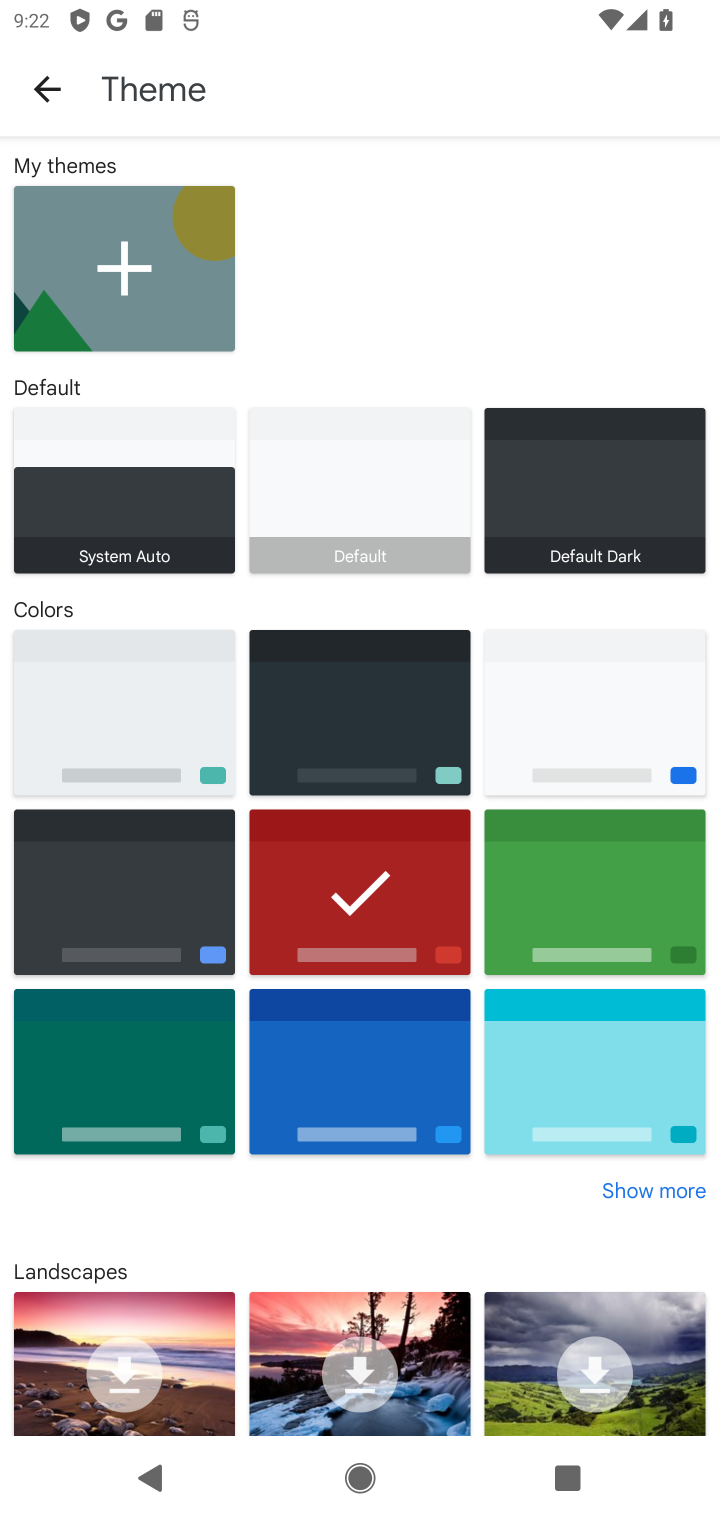
Step 29: click (360, 905)
Your task to perform on an android device: change keyboard looks Image 30: 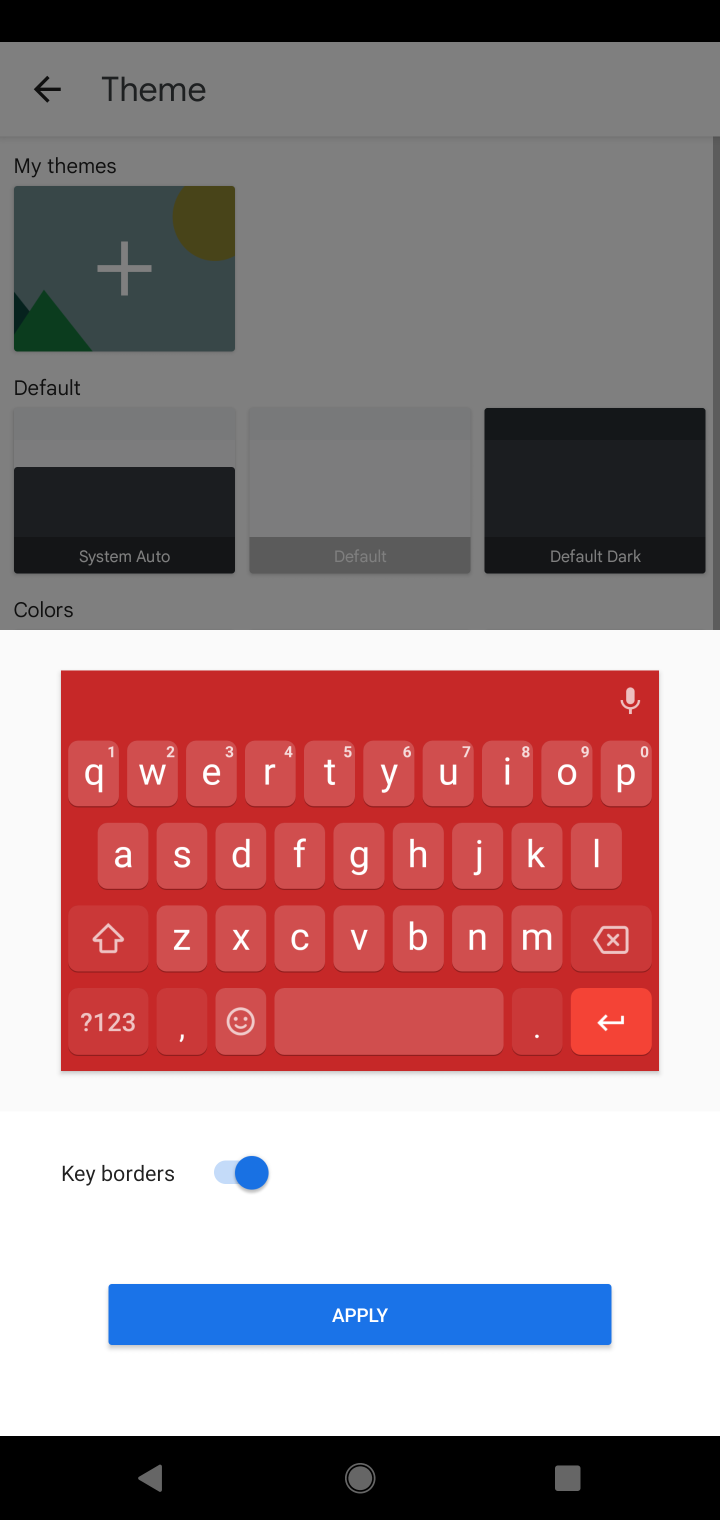
Step 30: click (280, 1300)
Your task to perform on an android device: change keyboard looks Image 31: 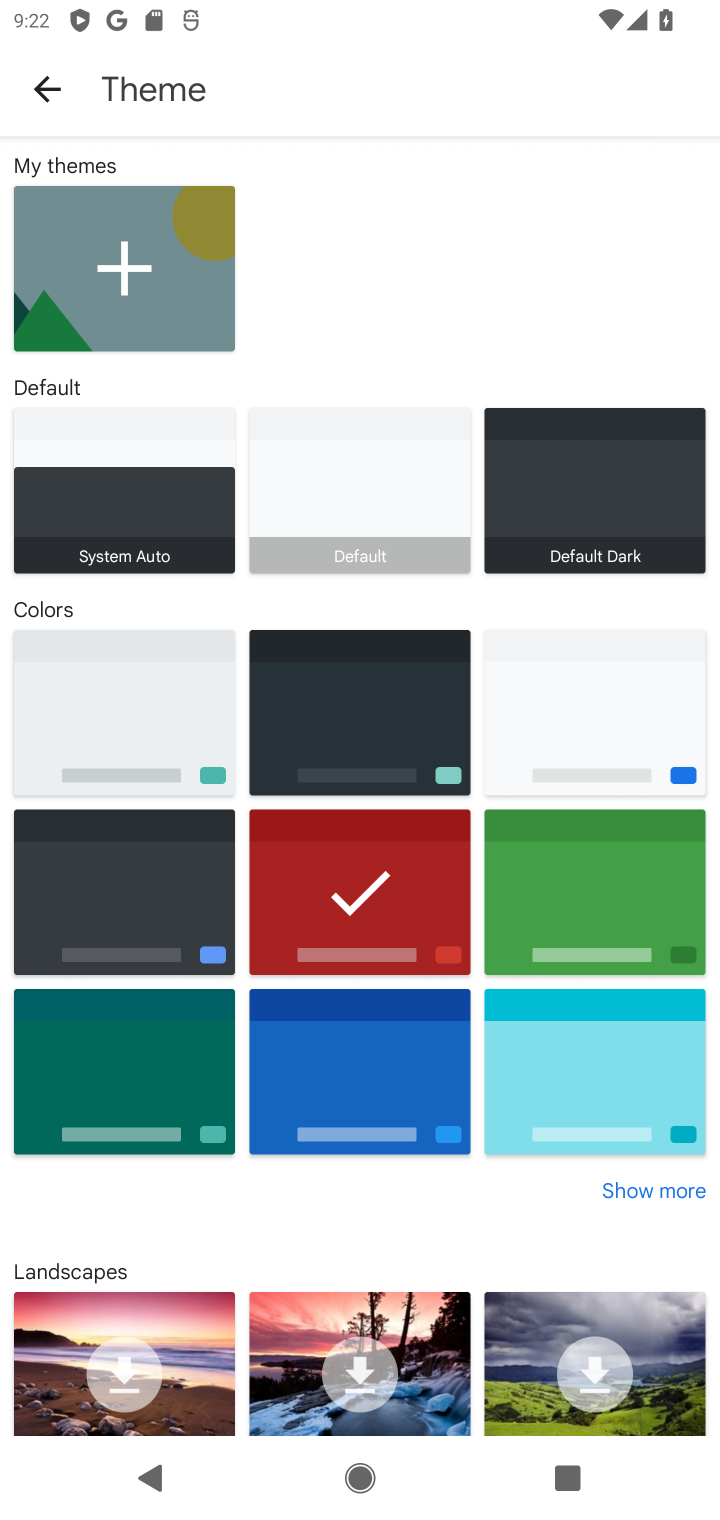
Step 31: task complete